Your task to perform on an android device: Go to calendar. Show me events next week Image 0: 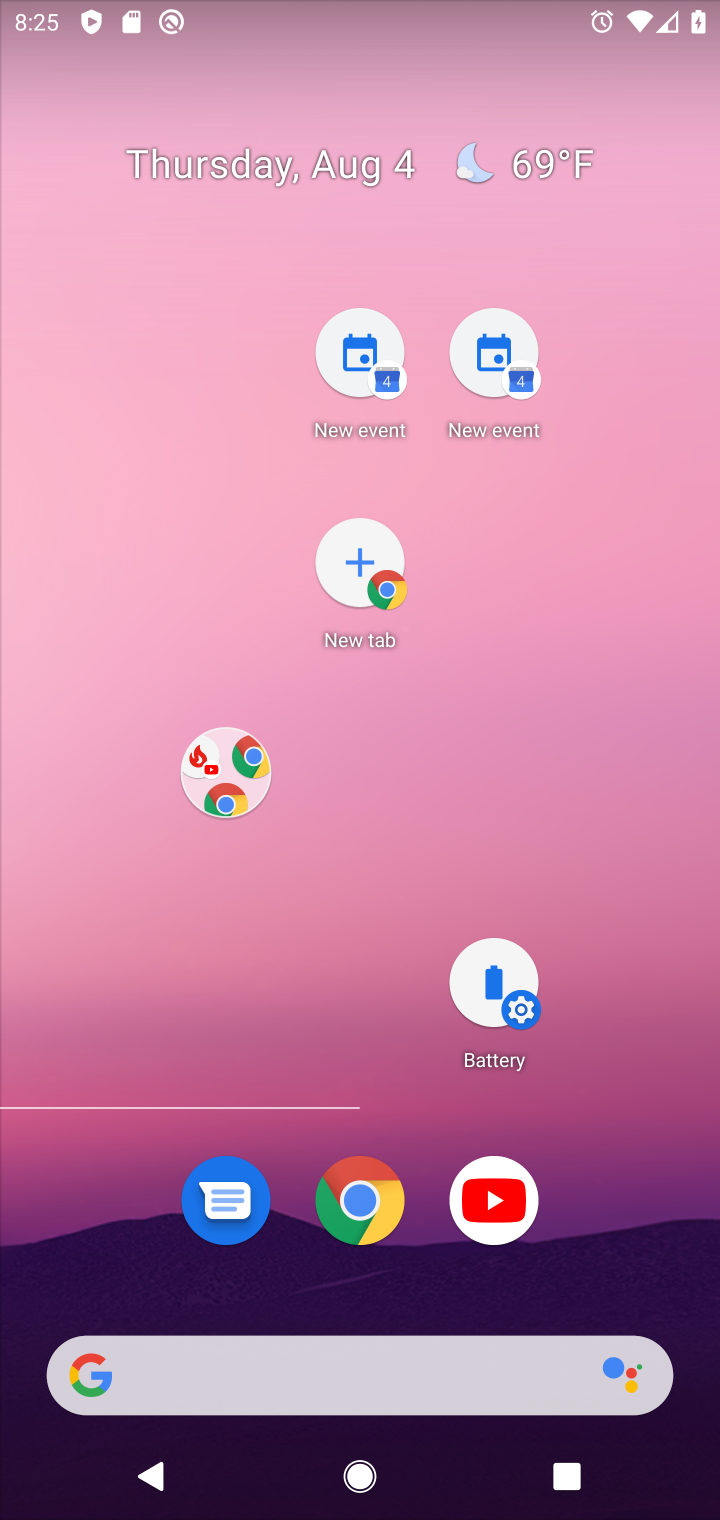
Step 0: press back button
Your task to perform on an android device: Go to calendar. Show me events next week Image 1: 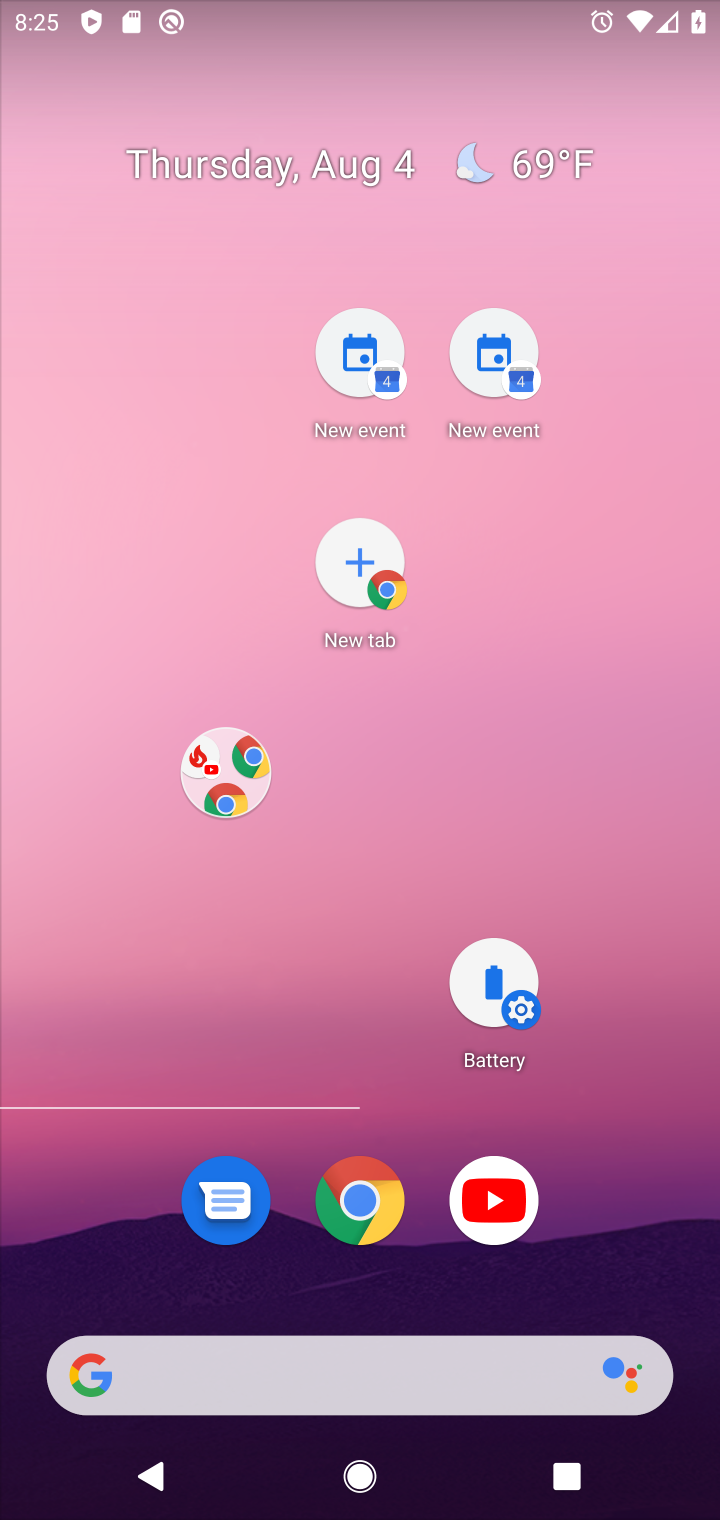
Step 1: click (348, 34)
Your task to perform on an android device: Go to calendar. Show me events next week Image 2: 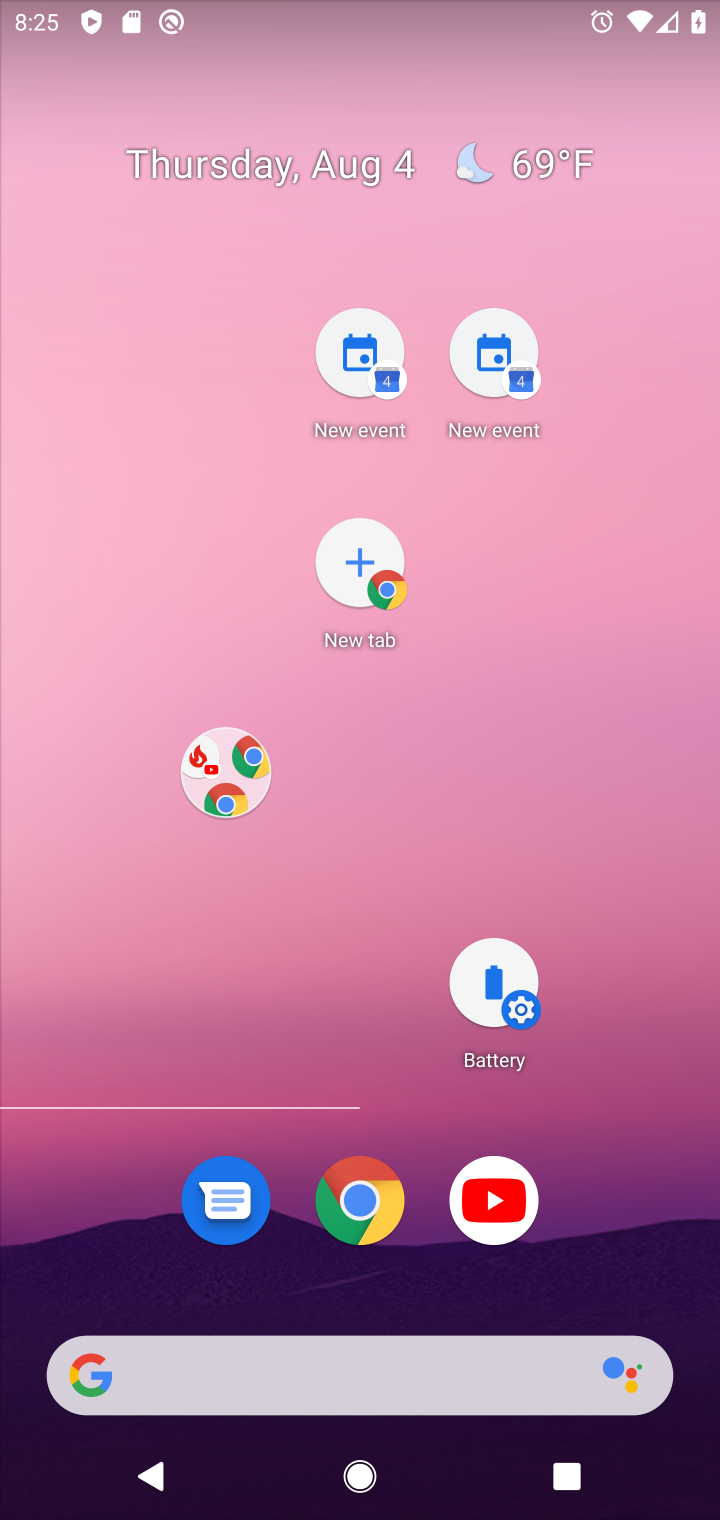
Step 2: click (375, 216)
Your task to perform on an android device: Go to calendar. Show me events next week Image 3: 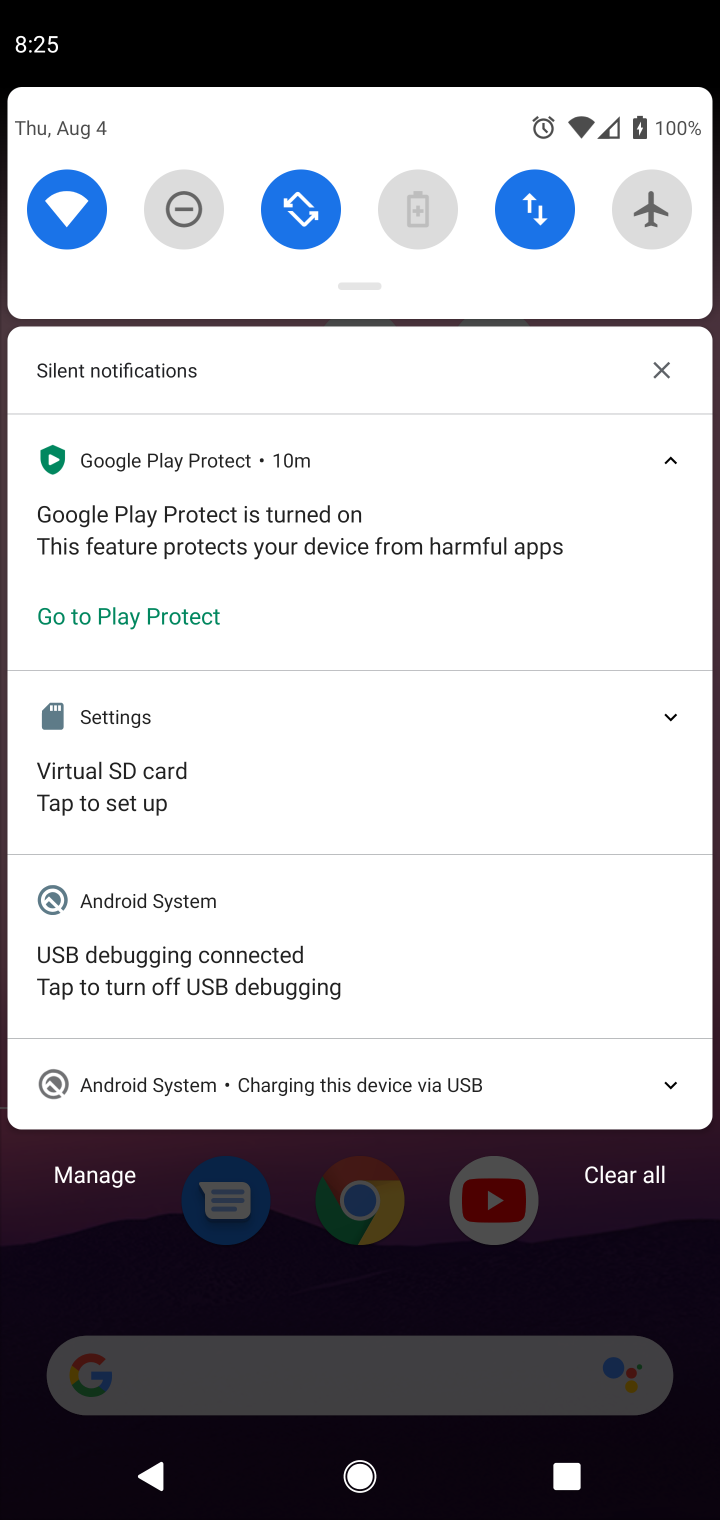
Step 3: drag from (510, 1135) to (439, 197)
Your task to perform on an android device: Go to calendar. Show me events next week Image 4: 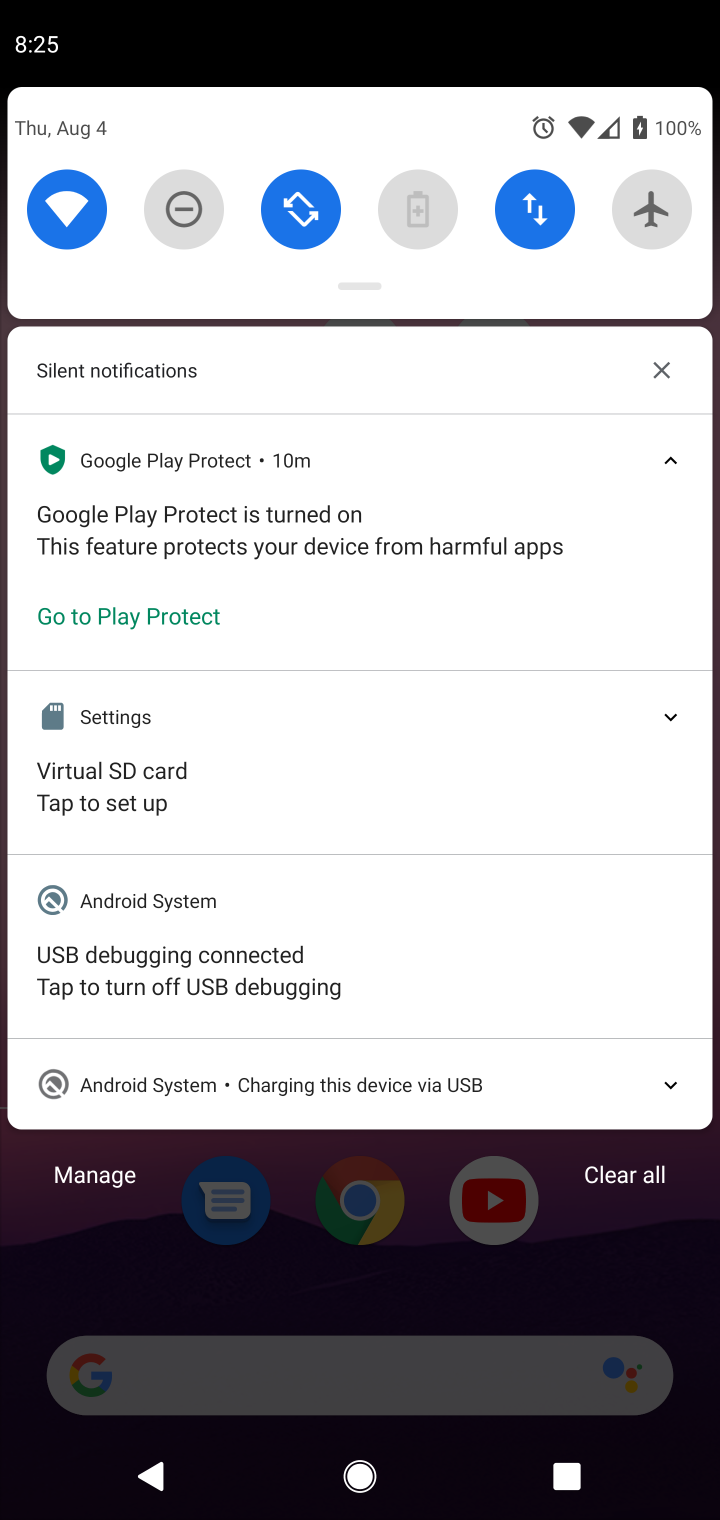
Step 4: drag from (520, 1056) to (482, 450)
Your task to perform on an android device: Go to calendar. Show me events next week Image 5: 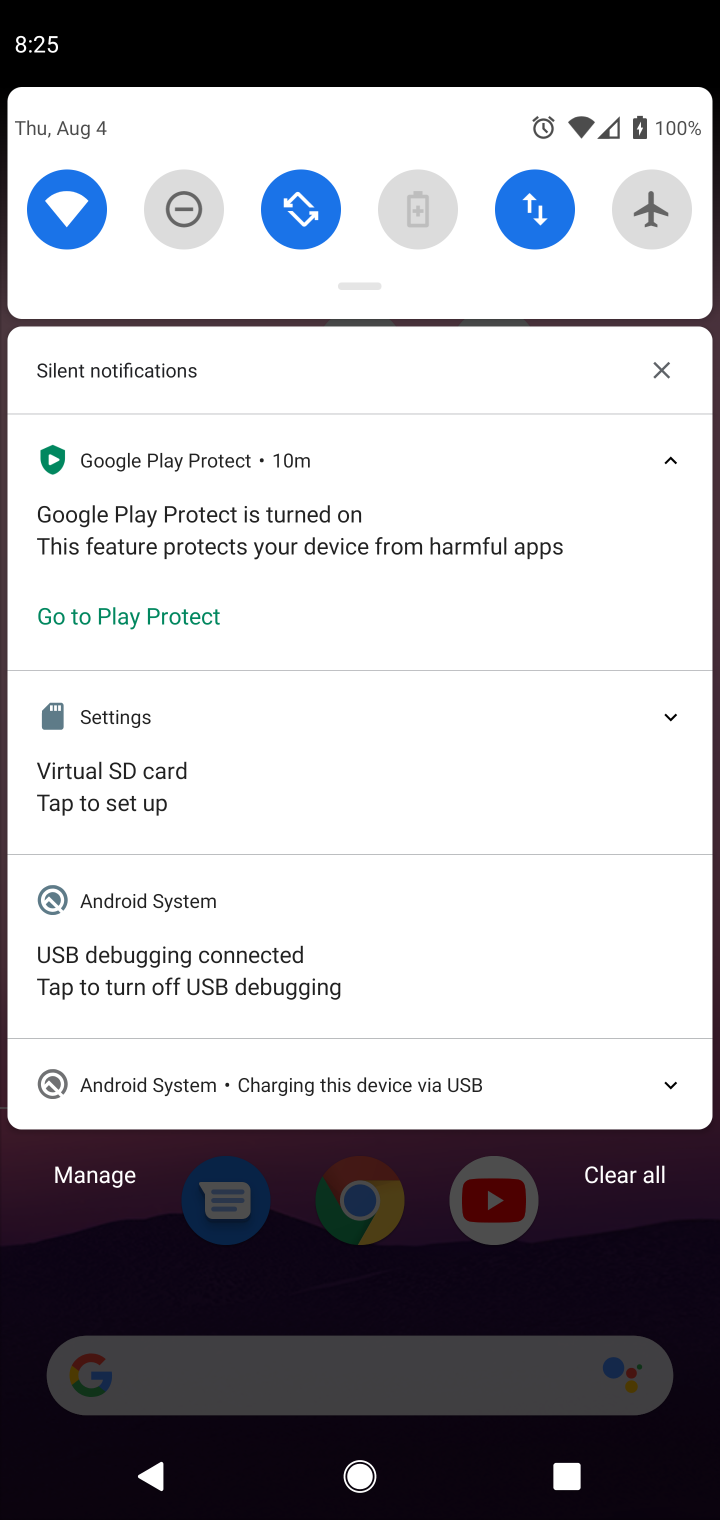
Step 5: drag from (395, 1196) to (256, 5)
Your task to perform on an android device: Go to calendar. Show me events next week Image 6: 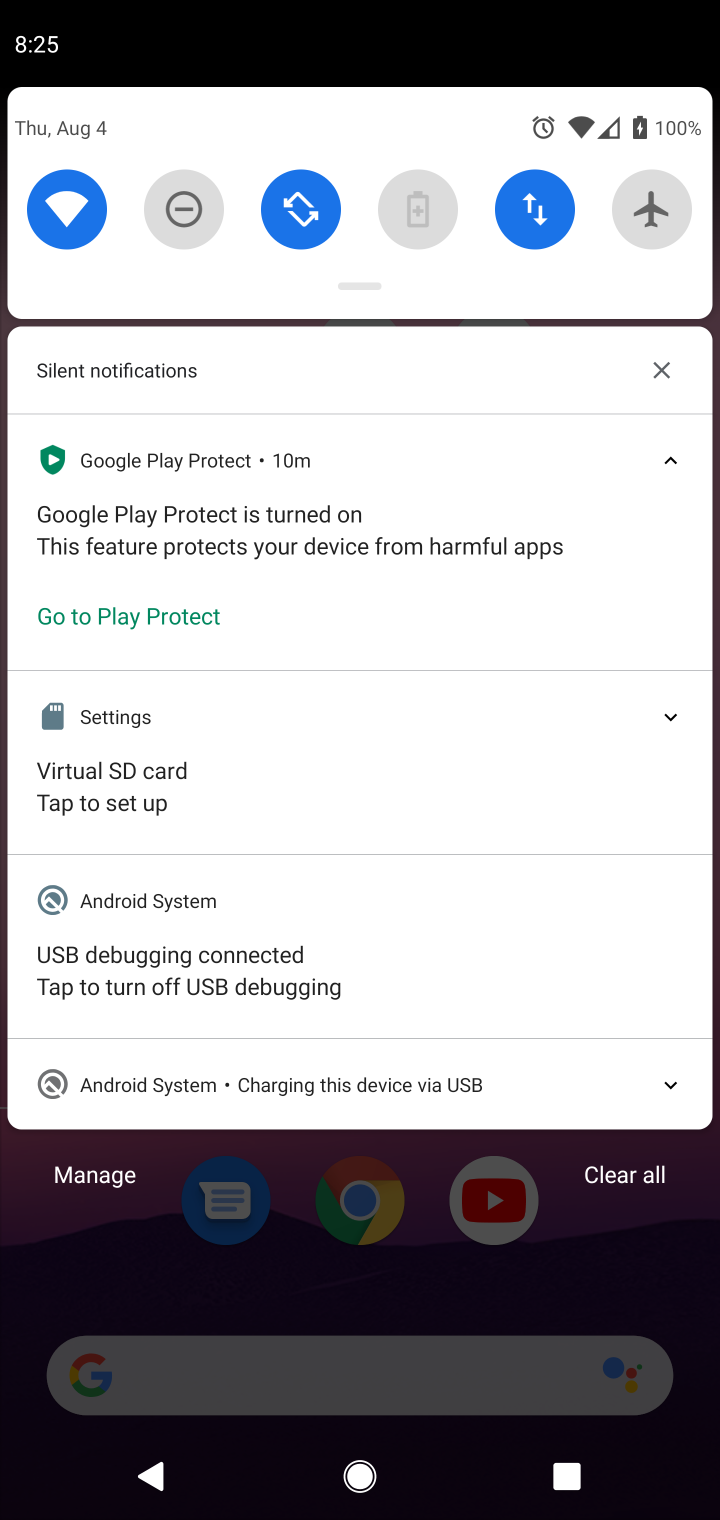
Step 6: click (348, 198)
Your task to perform on an android device: Go to calendar. Show me events next week Image 7: 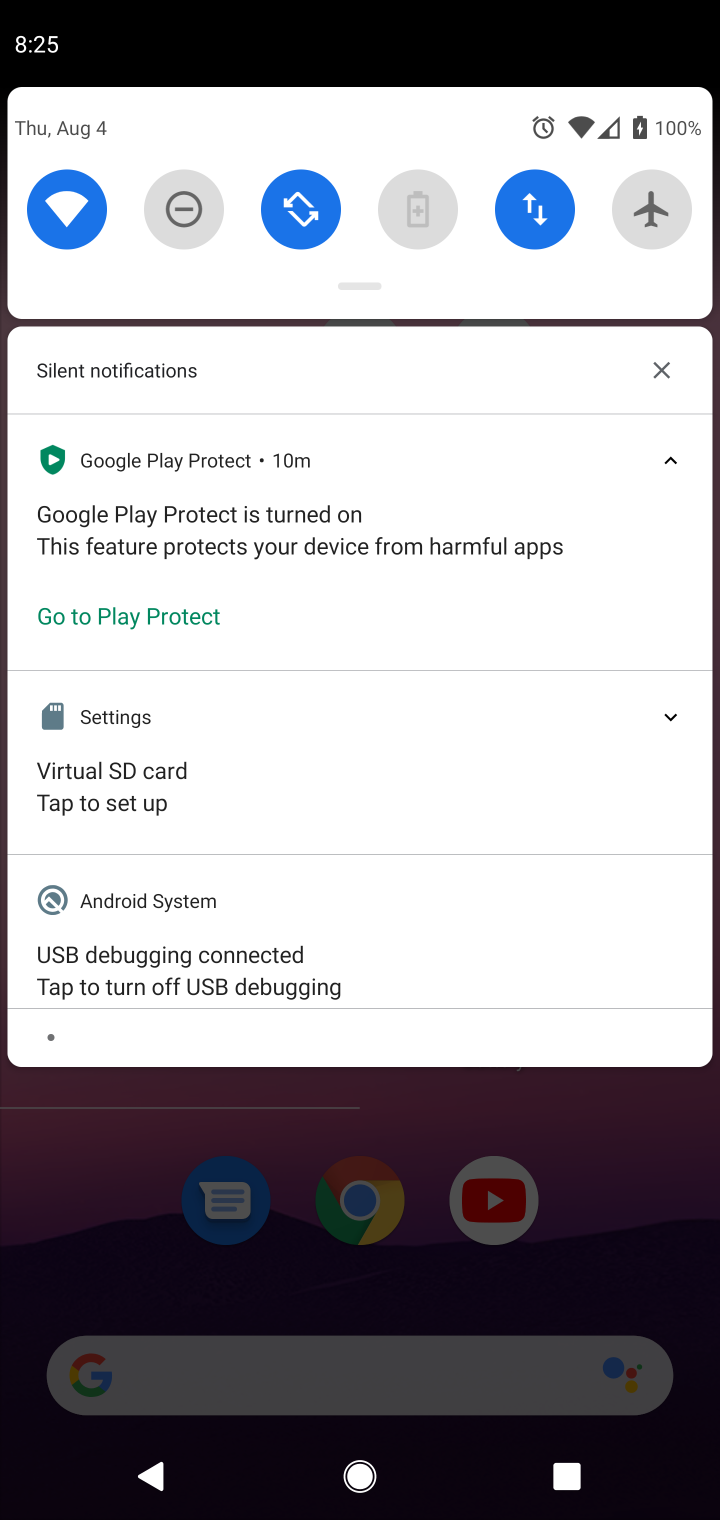
Step 7: click (372, 14)
Your task to perform on an android device: Go to calendar. Show me events next week Image 8: 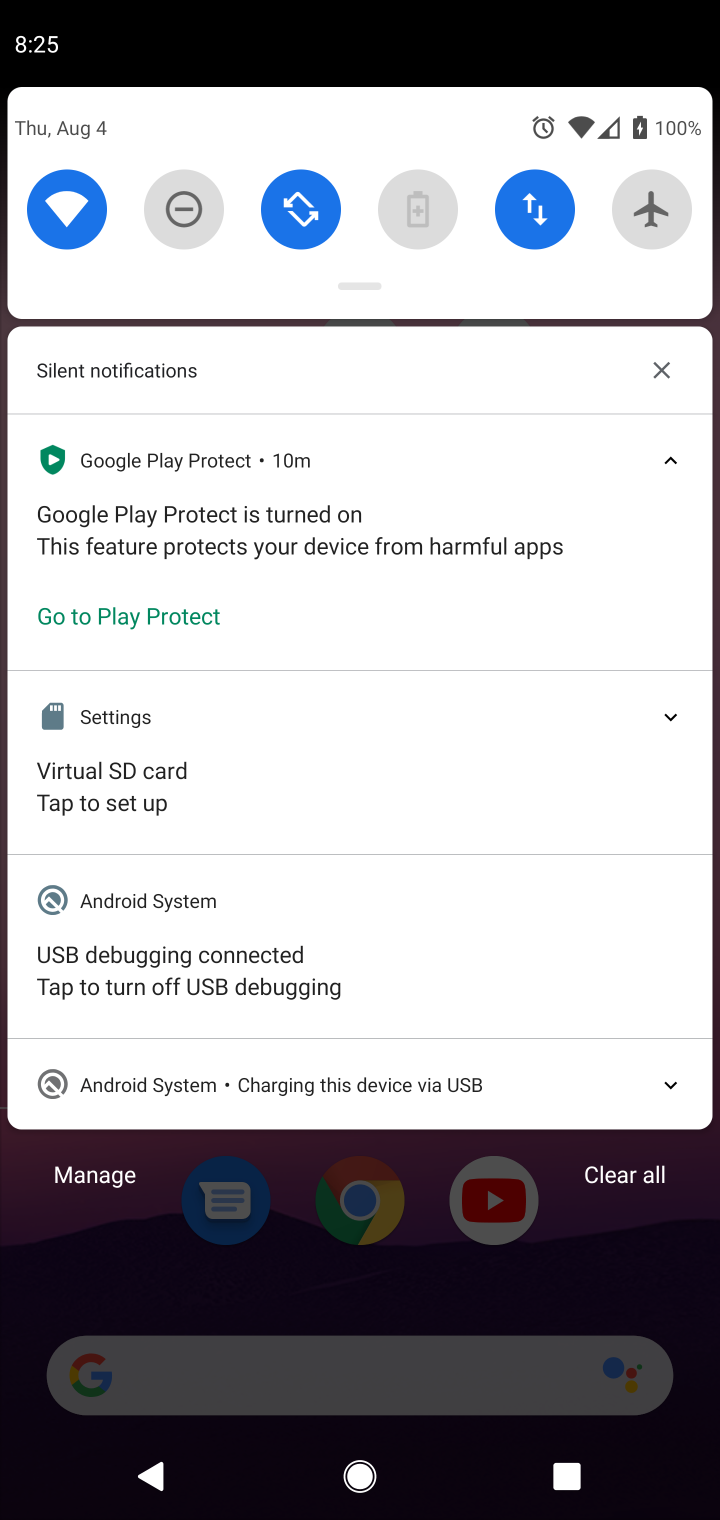
Step 8: press back button
Your task to perform on an android device: Go to calendar. Show me events next week Image 9: 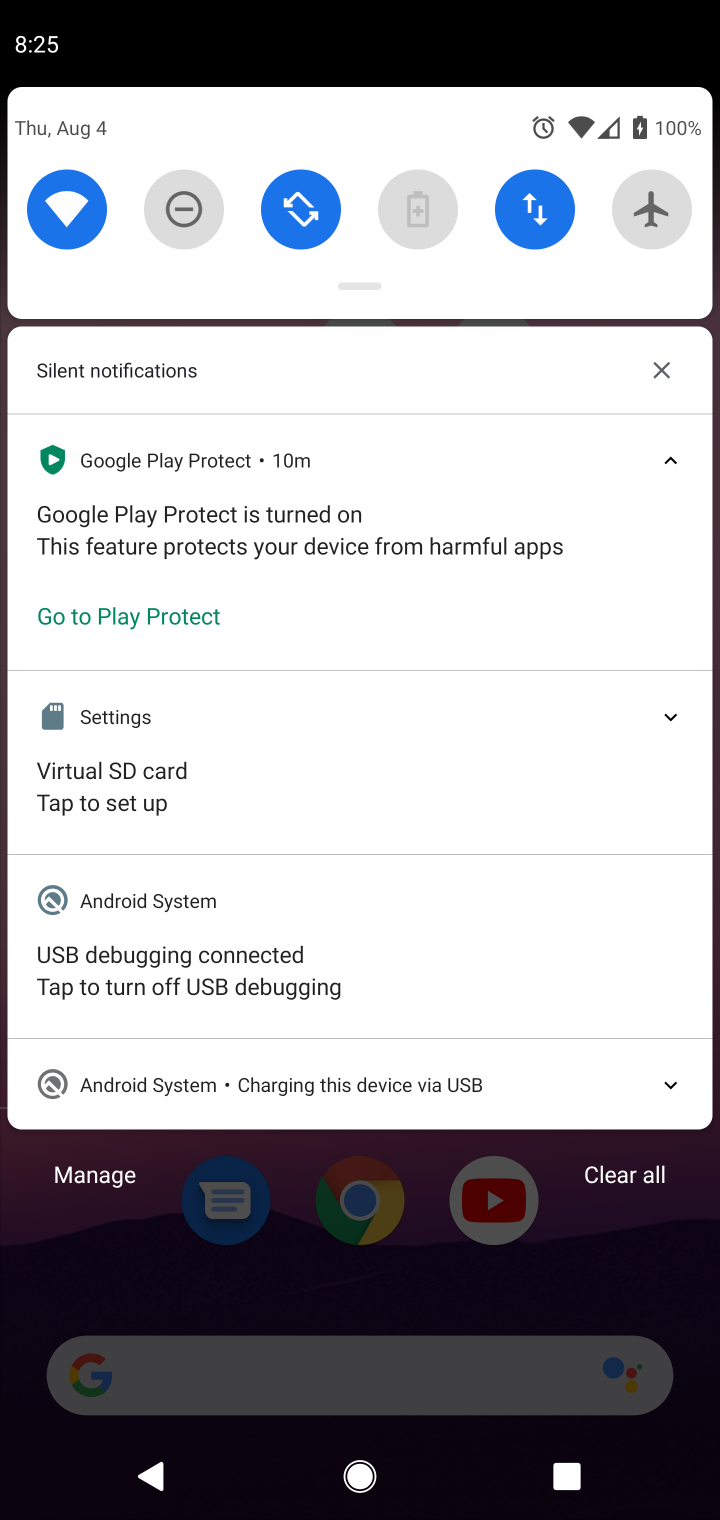
Step 9: press back button
Your task to perform on an android device: Go to calendar. Show me events next week Image 10: 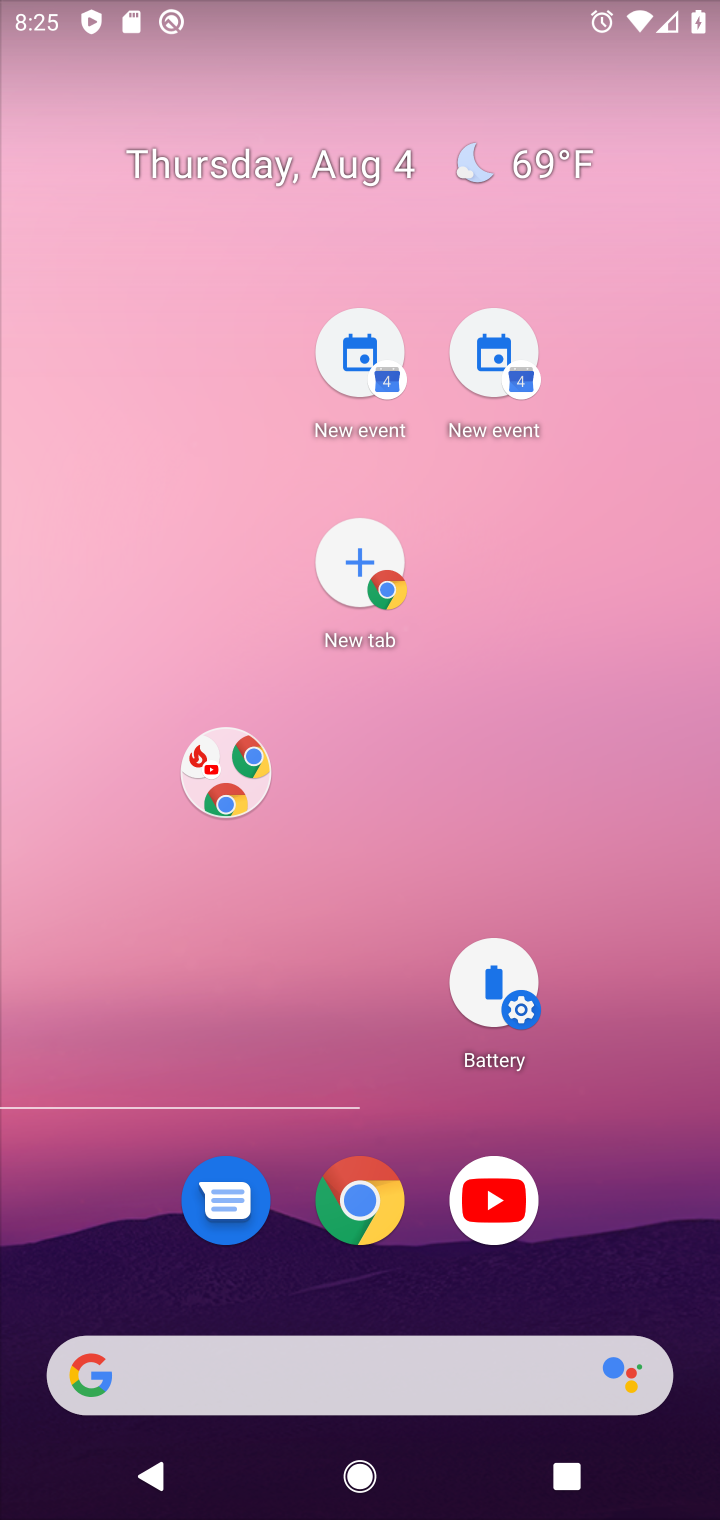
Step 10: click (250, 683)
Your task to perform on an android device: Go to calendar. Show me events next week Image 11: 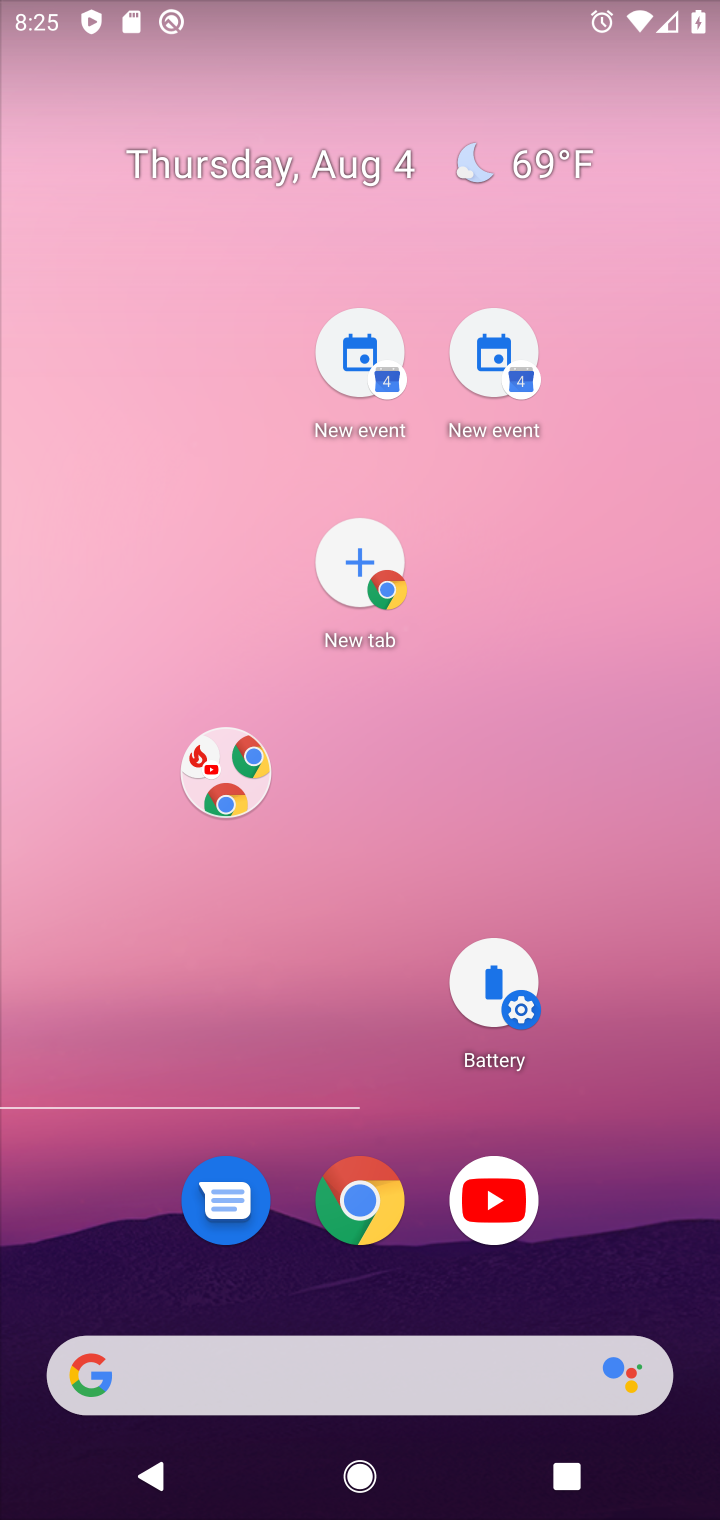
Step 11: drag from (384, 1323) to (309, 792)
Your task to perform on an android device: Go to calendar. Show me events next week Image 12: 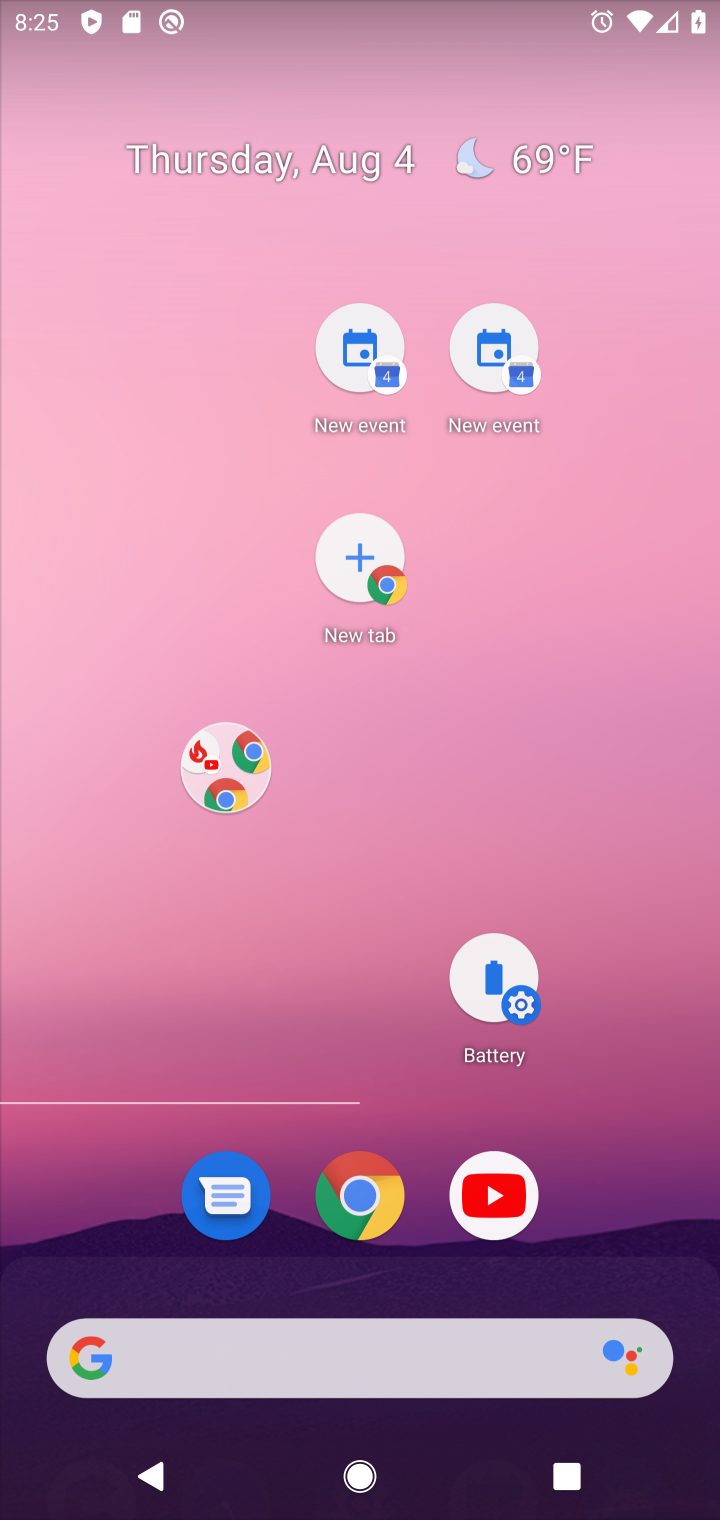
Step 12: drag from (460, 1326) to (307, 378)
Your task to perform on an android device: Go to calendar. Show me events next week Image 13: 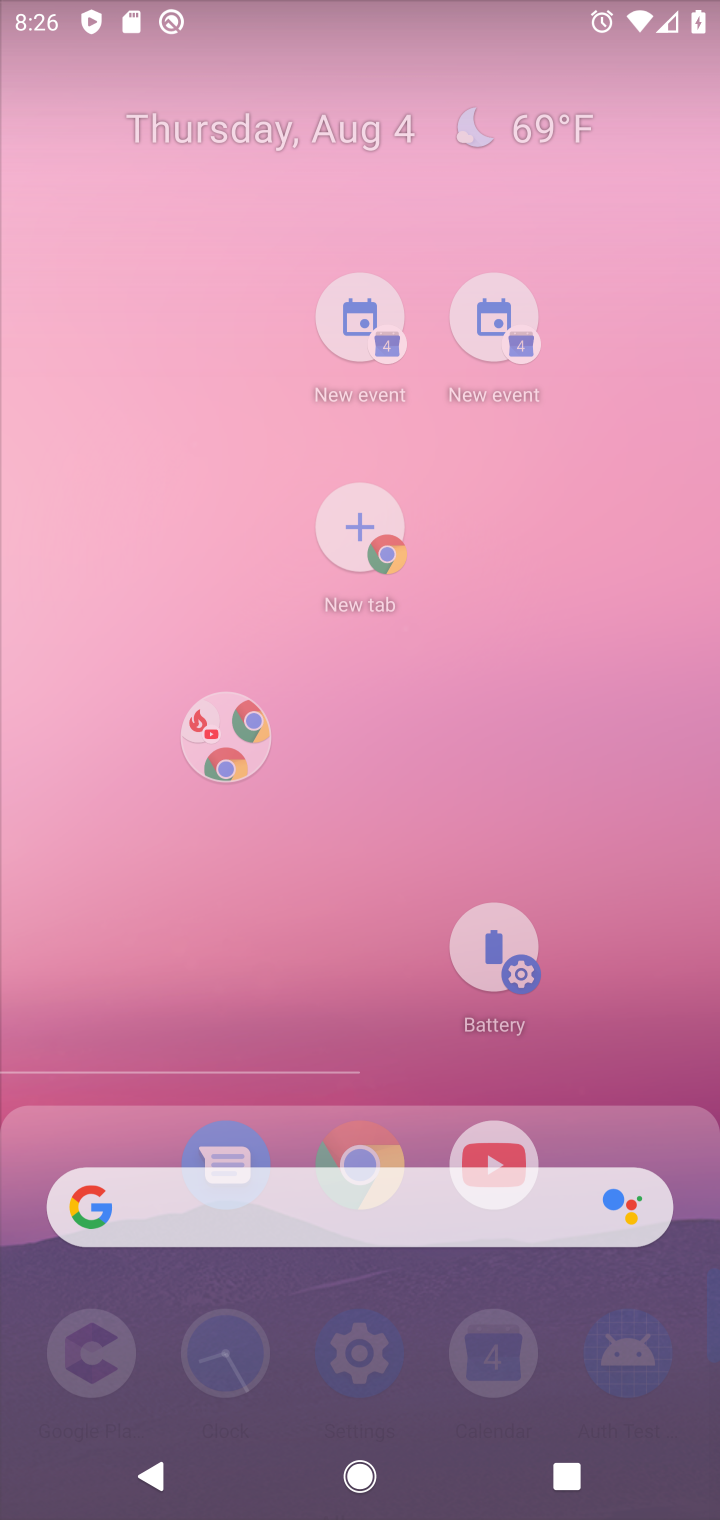
Step 13: click (410, 501)
Your task to perform on an android device: Go to calendar. Show me events next week Image 14: 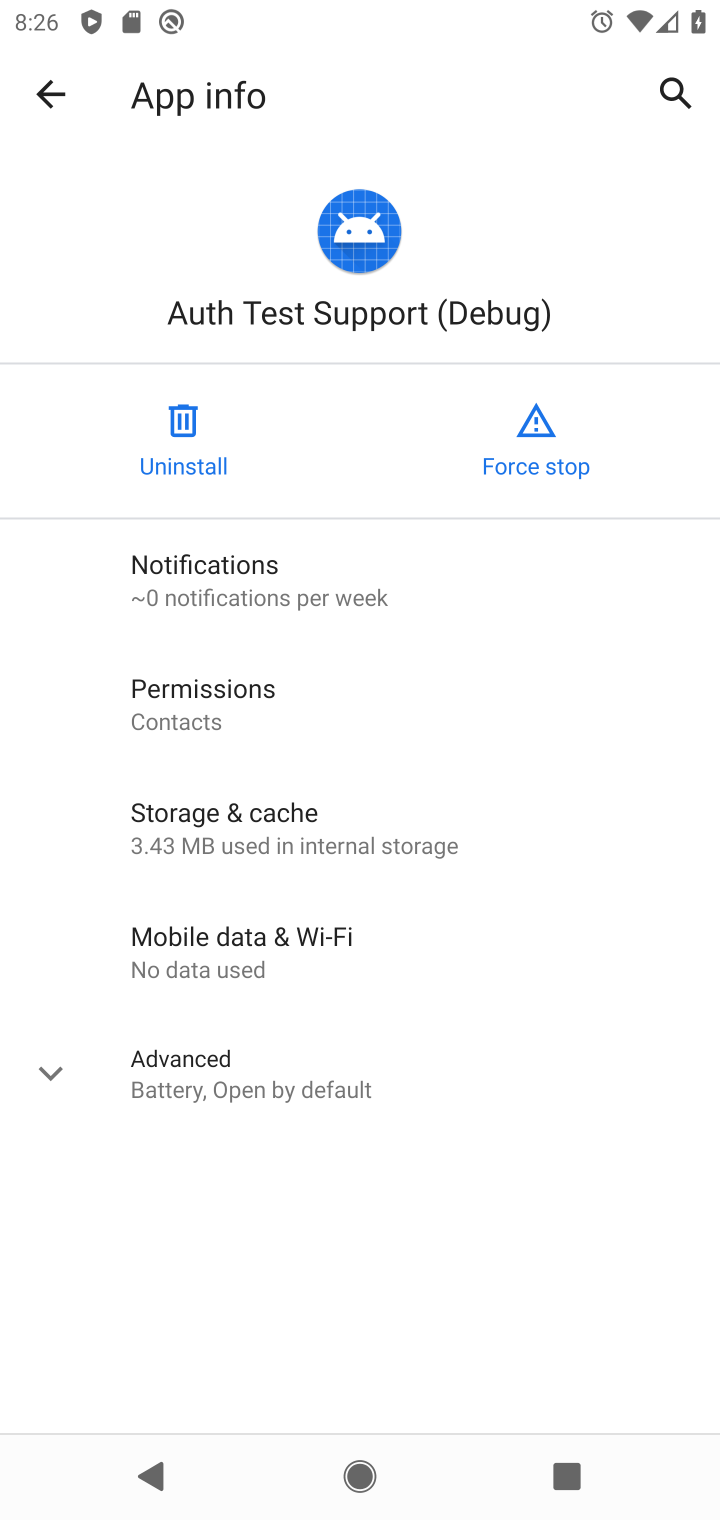
Step 14: click (605, 529)
Your task to perform on an android device: Go to calendar. Show me events next week Image 15: 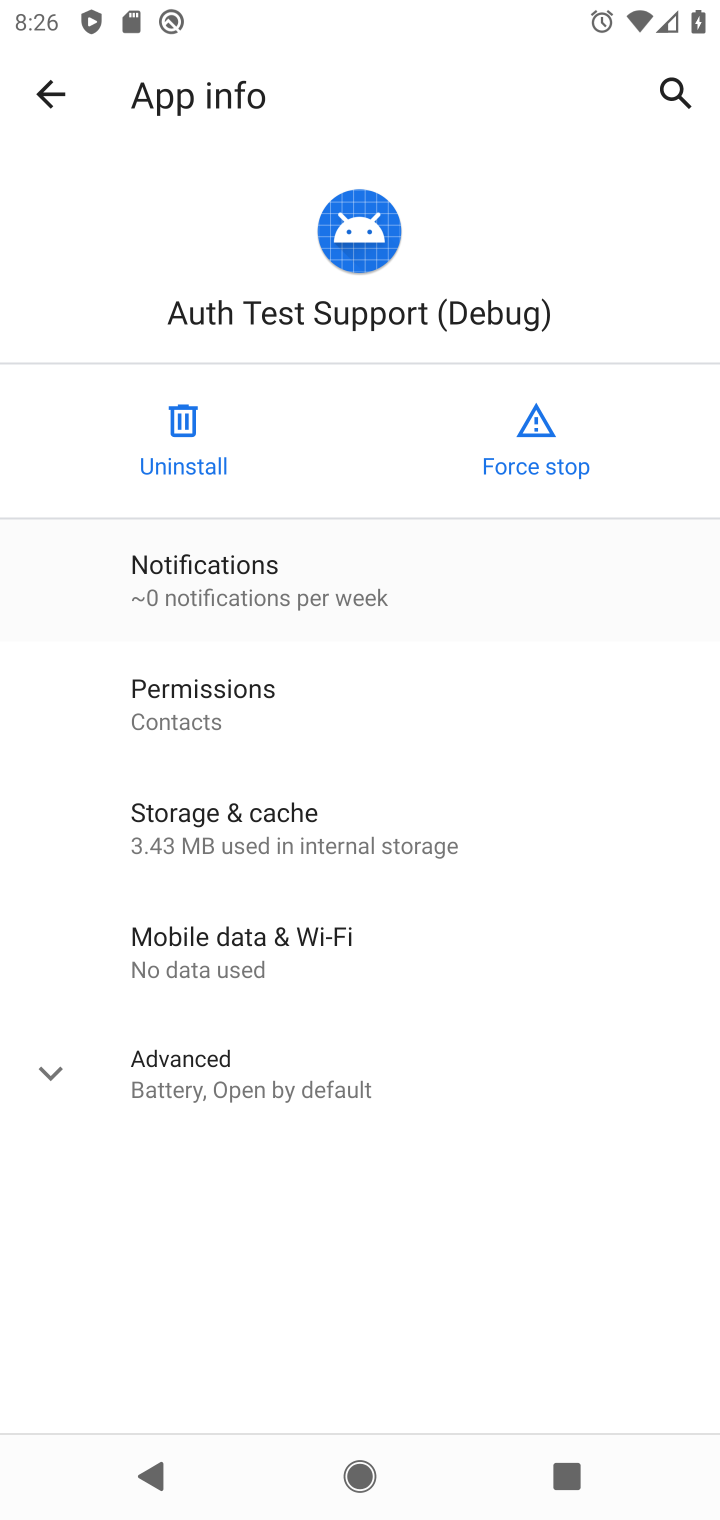
Step 15: click (36, 102)
Your task to perform on an android device: Go to calendar. Show me events next week Image 16: 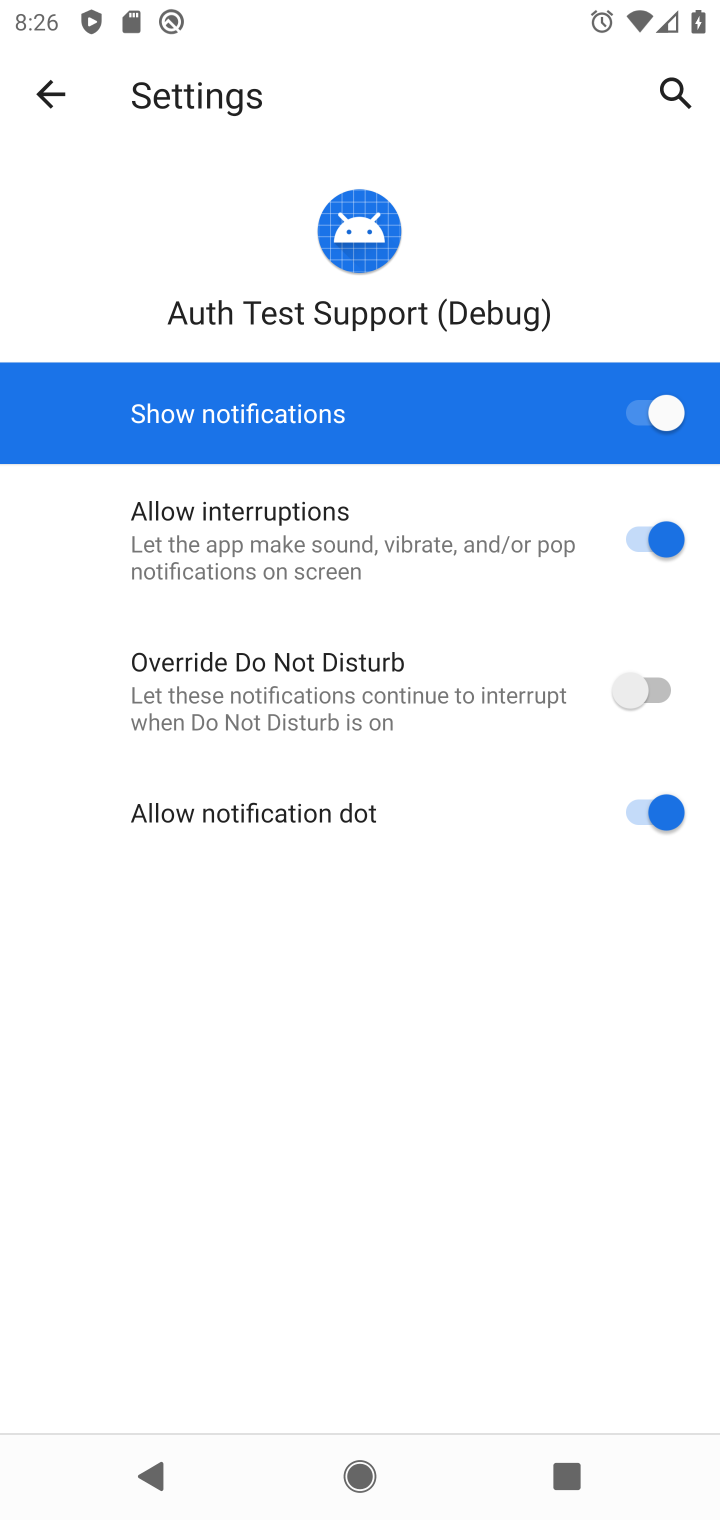
Step 16: click (45, 98)
Your task to perform on an android device: Go to calendar. Show me events next week Image 17: 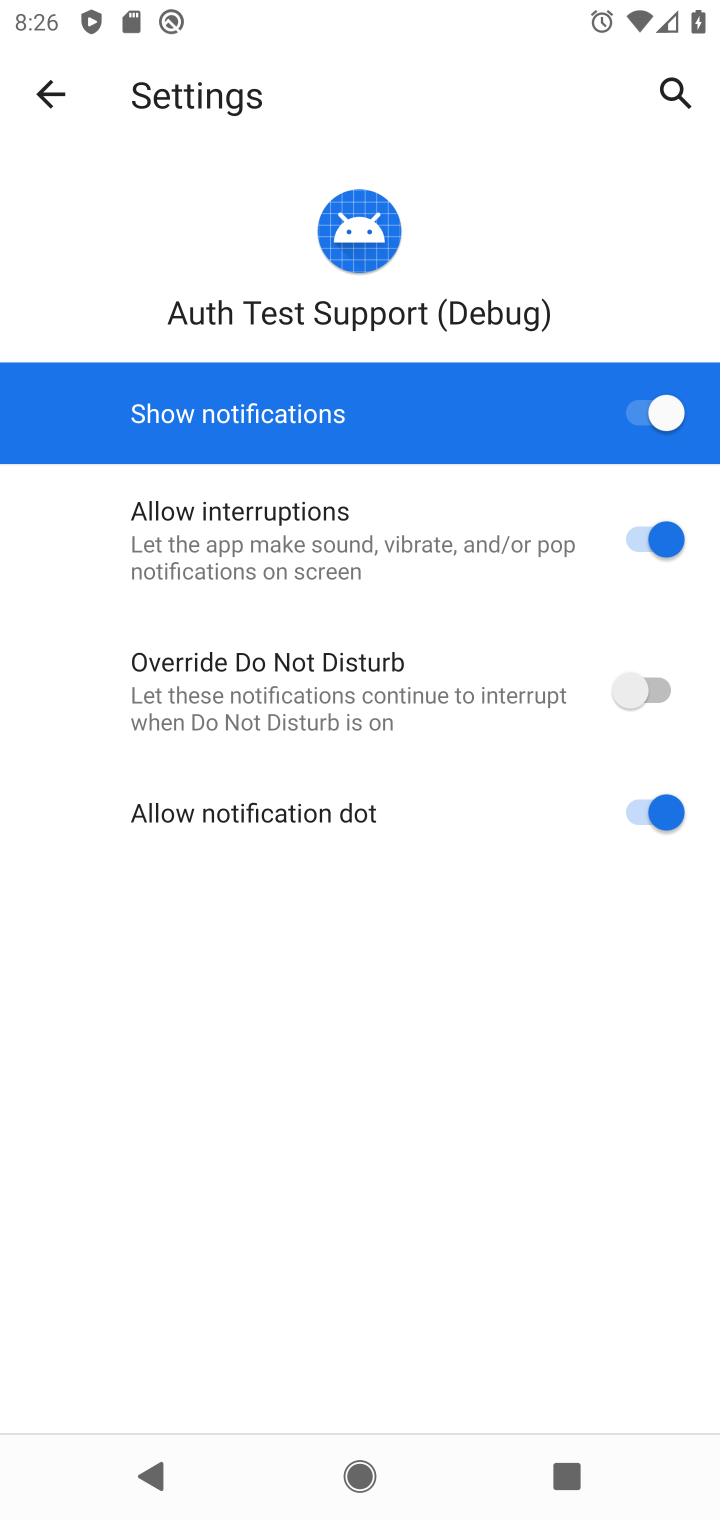
Step 17: click (47, 100)
Your task to perform on an android device: Go to calendar. Show me events next week Image 18: 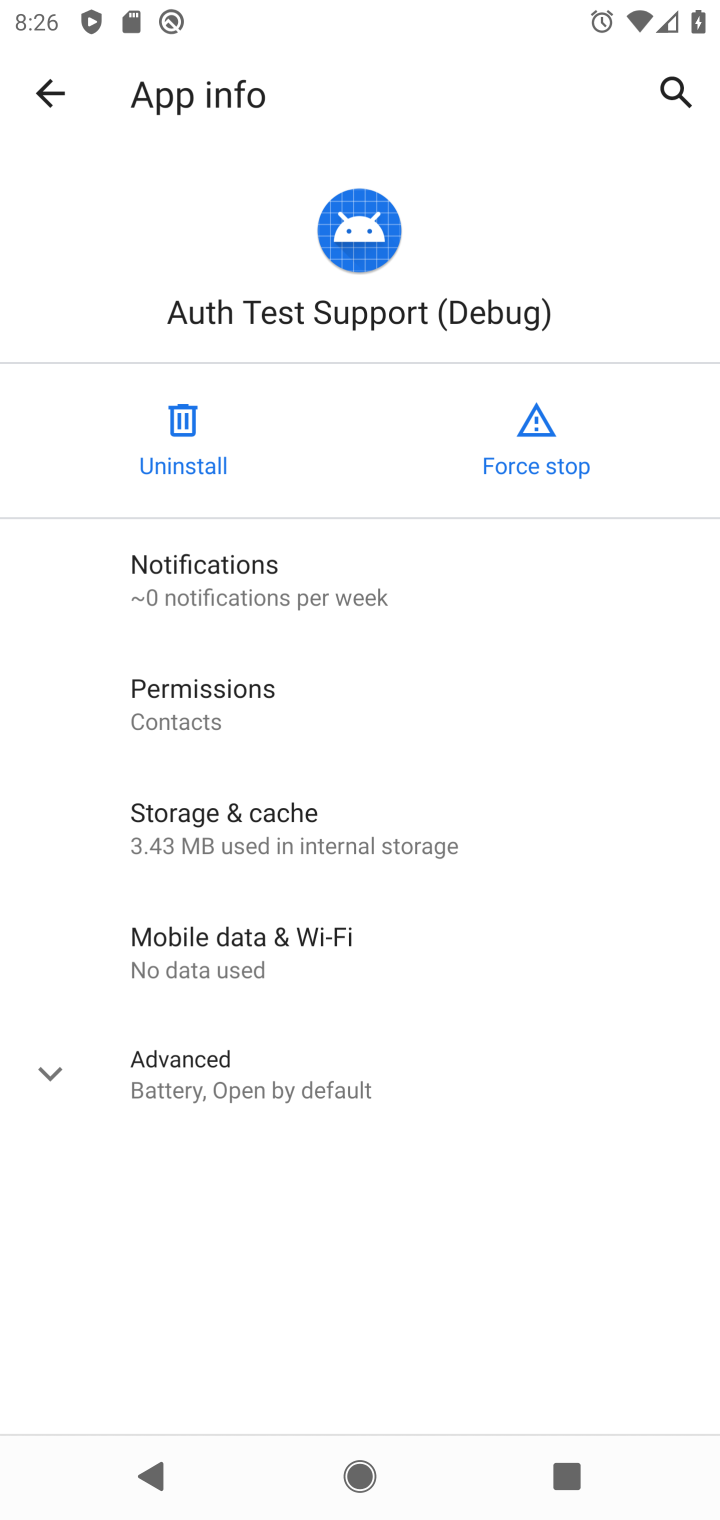
Step 18: click (47, 100)
Your task to perform on an android device: Go to calendar. Show me events next week Image 19: 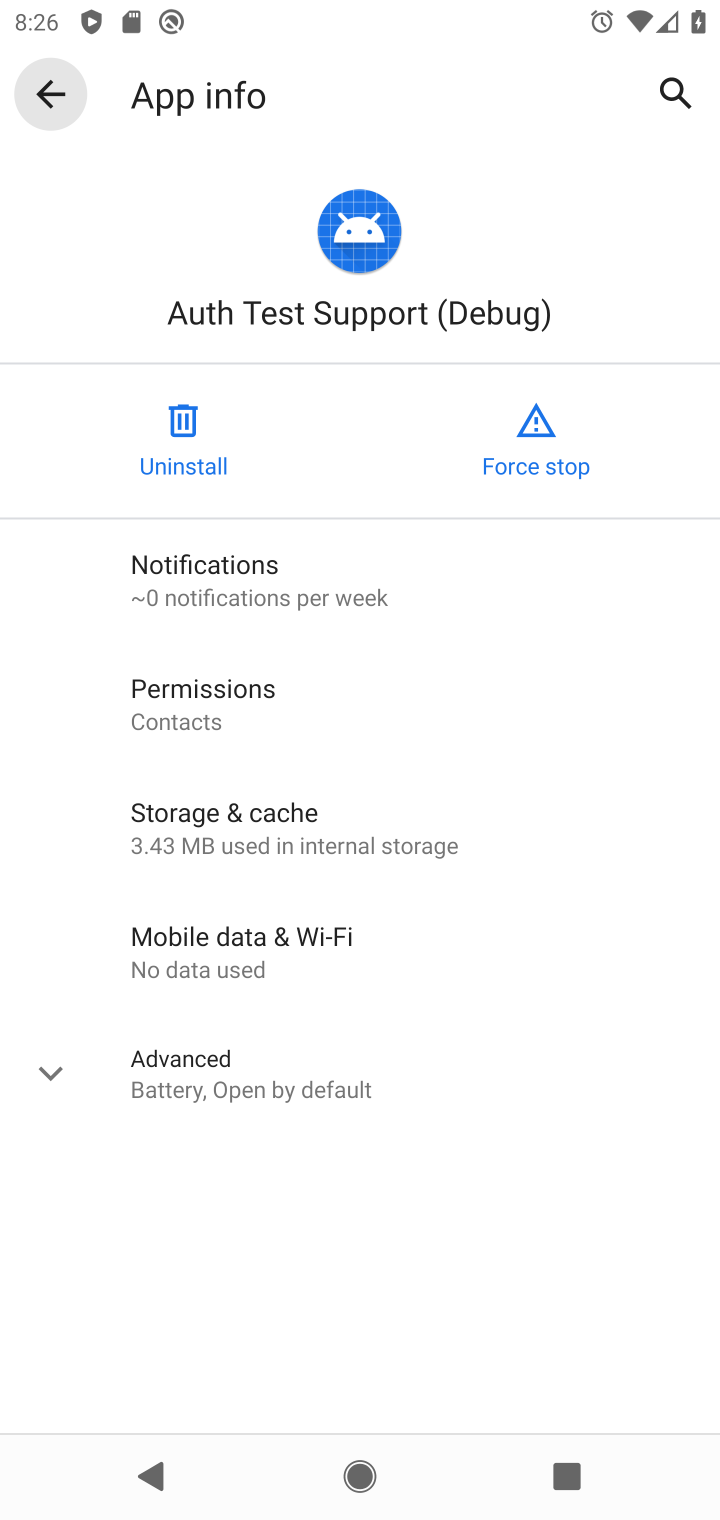
Step 19: click (47, 100)
Your task to perform on an android device: Go to calendar. Show me events next week Image 20: 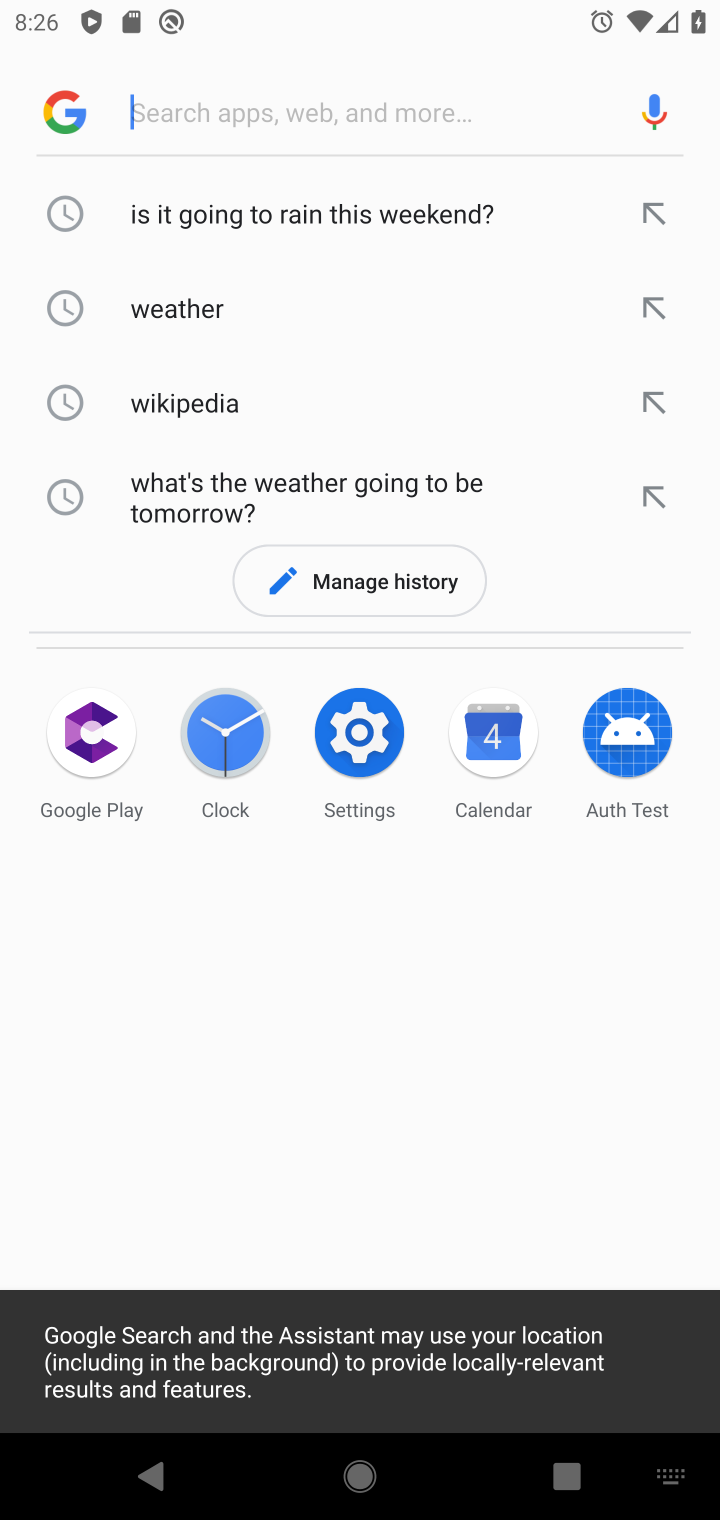
Step 20: press back button
Your task to perform on an android device: Go to calendar. Show me events next week Image 21: 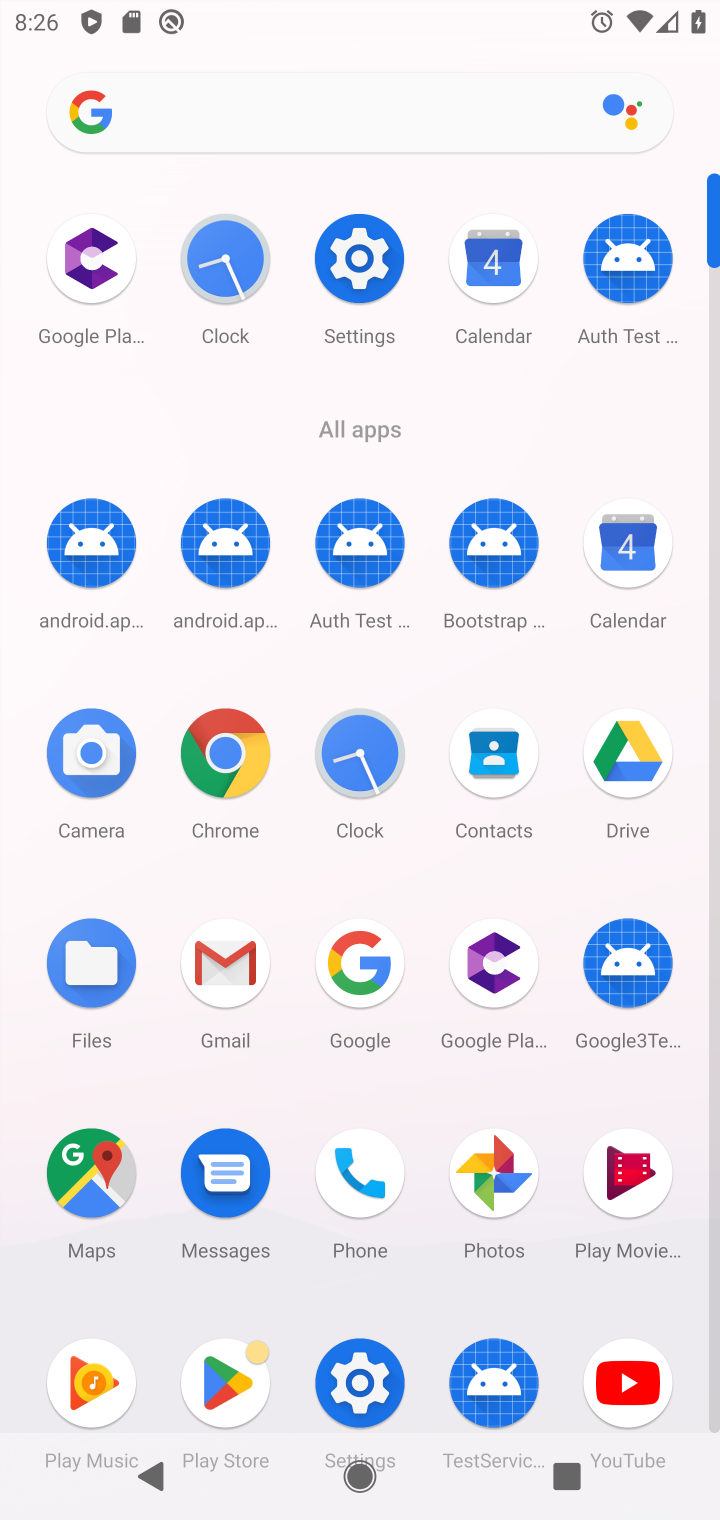
Step 21: click (635, 530)
Your task to perform on an android device: Go to calendar. Show me events next week Image 22: 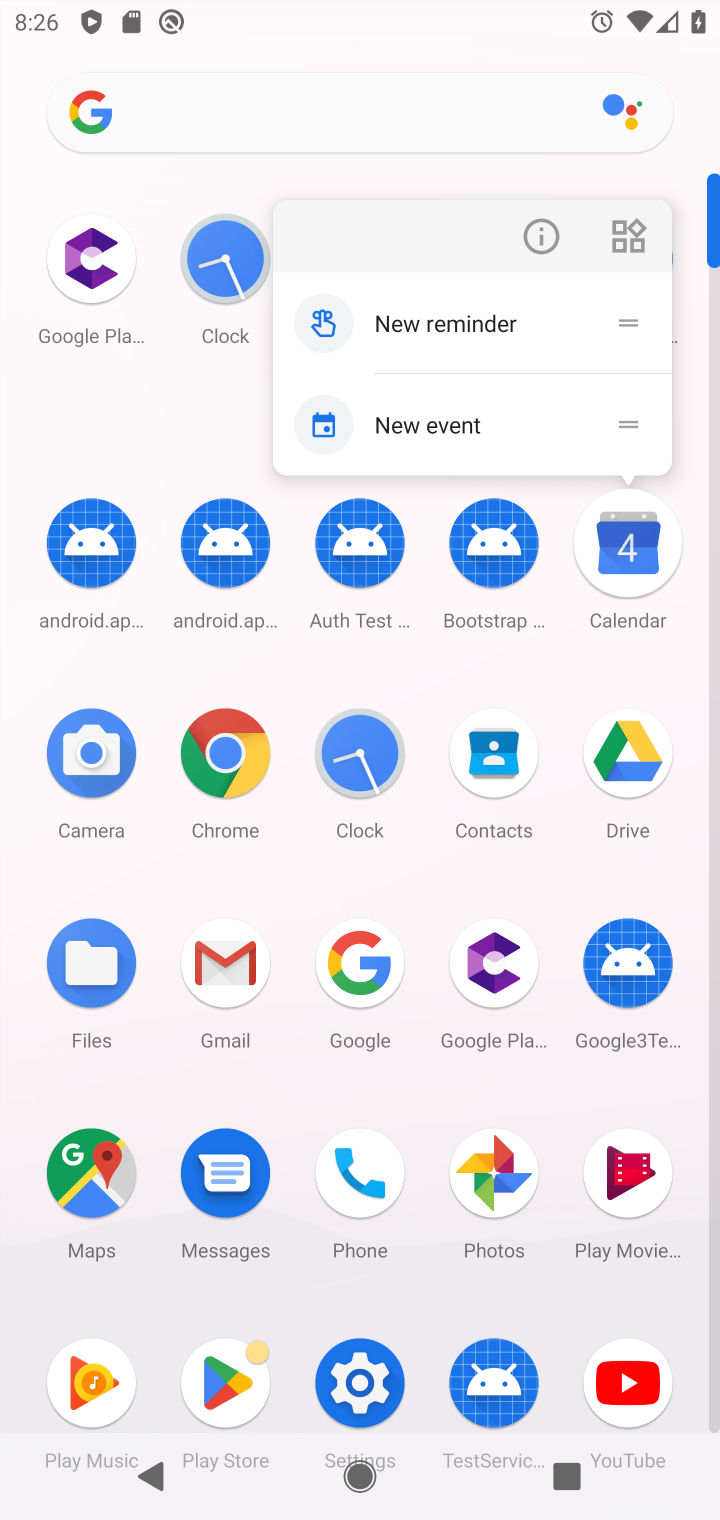
Step 22: click (617, 561)
Your task to perform on an android device: Go to calendar. Show me events next week Image 23: 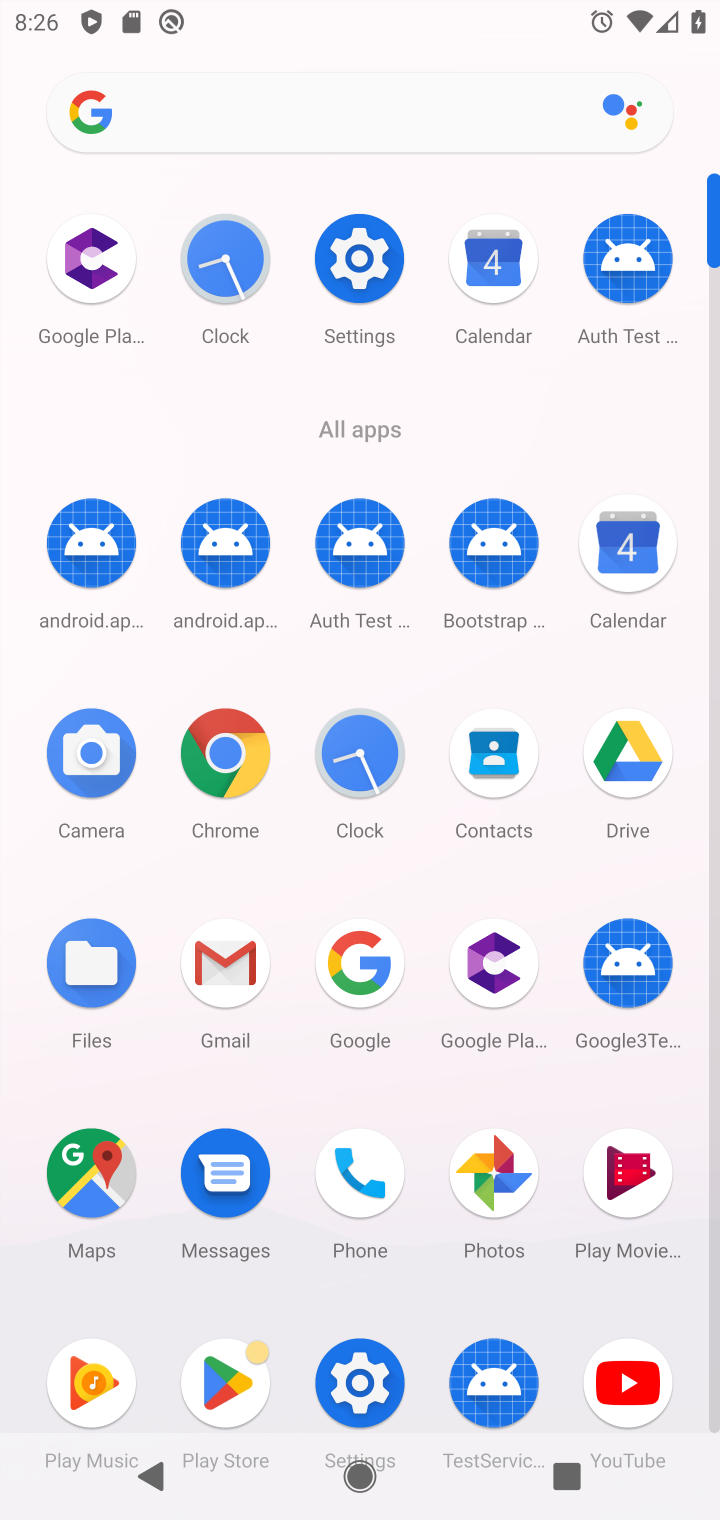
Step 23: click (472, 432)
Your task to perform on an android device: Go to calendar. Show me events next week Image 24: 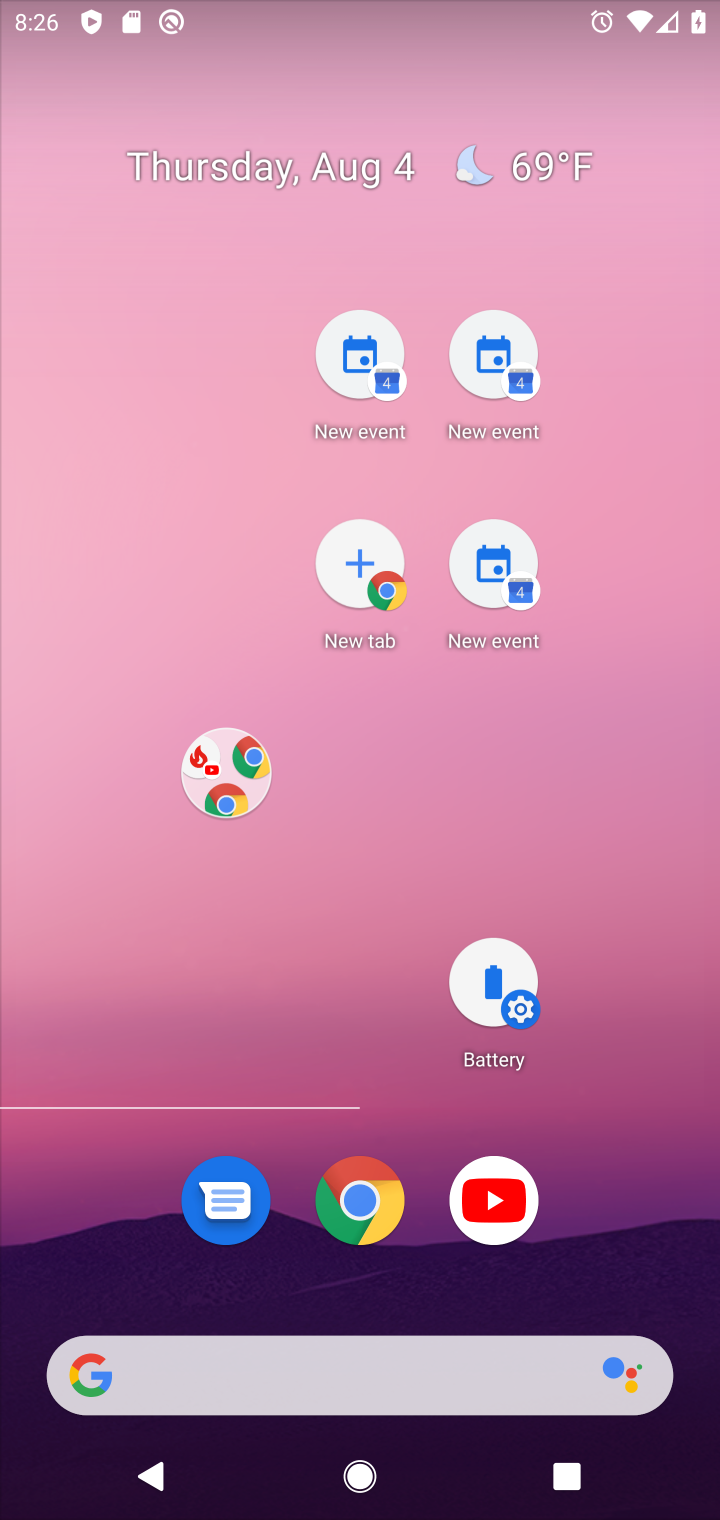
Step 24: drag from (341, 807) to (271, 233)
Your task to perform on an android device: Go to calendar. Show me events next week Image 25: 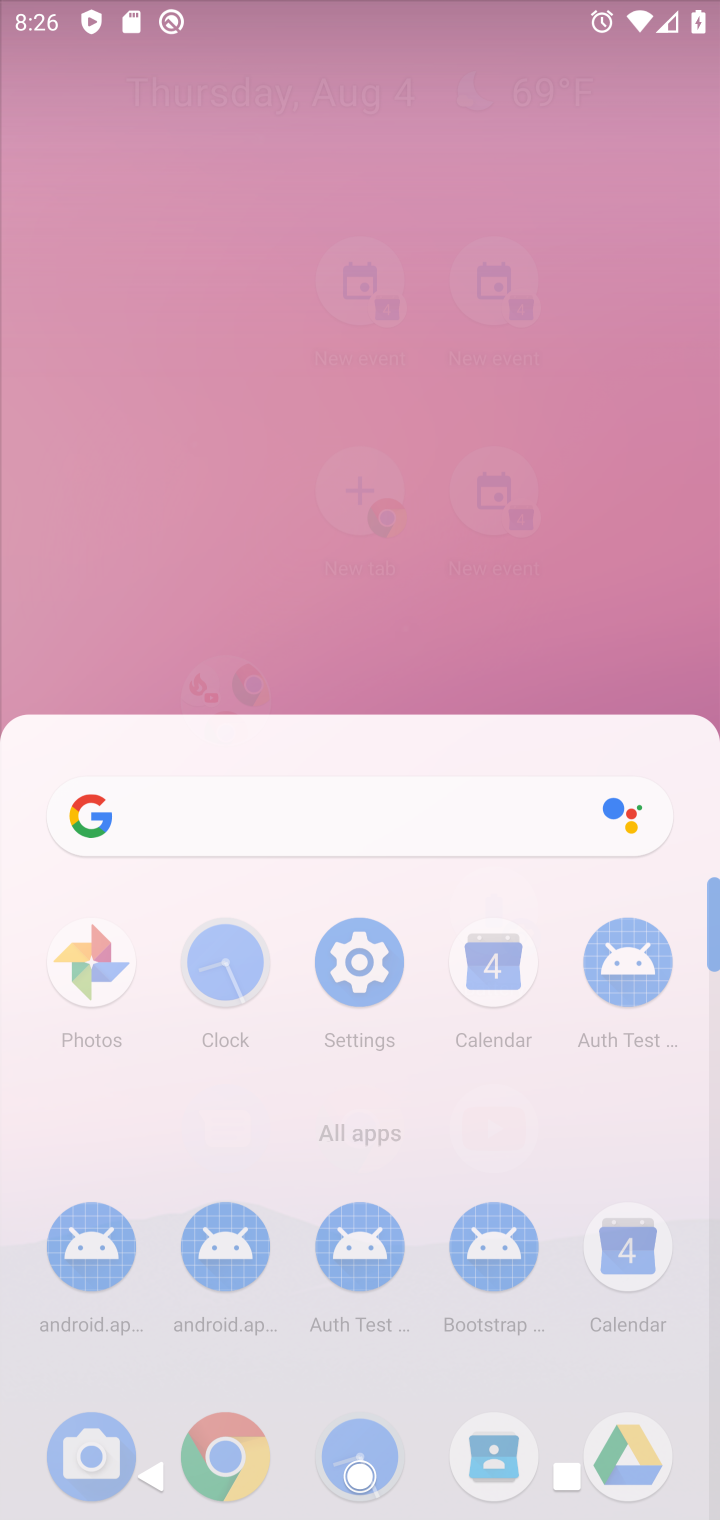
Step 25: click (511, 374)
Your task to perform on an android device: Go to calendar. Show me events next week Image 26: 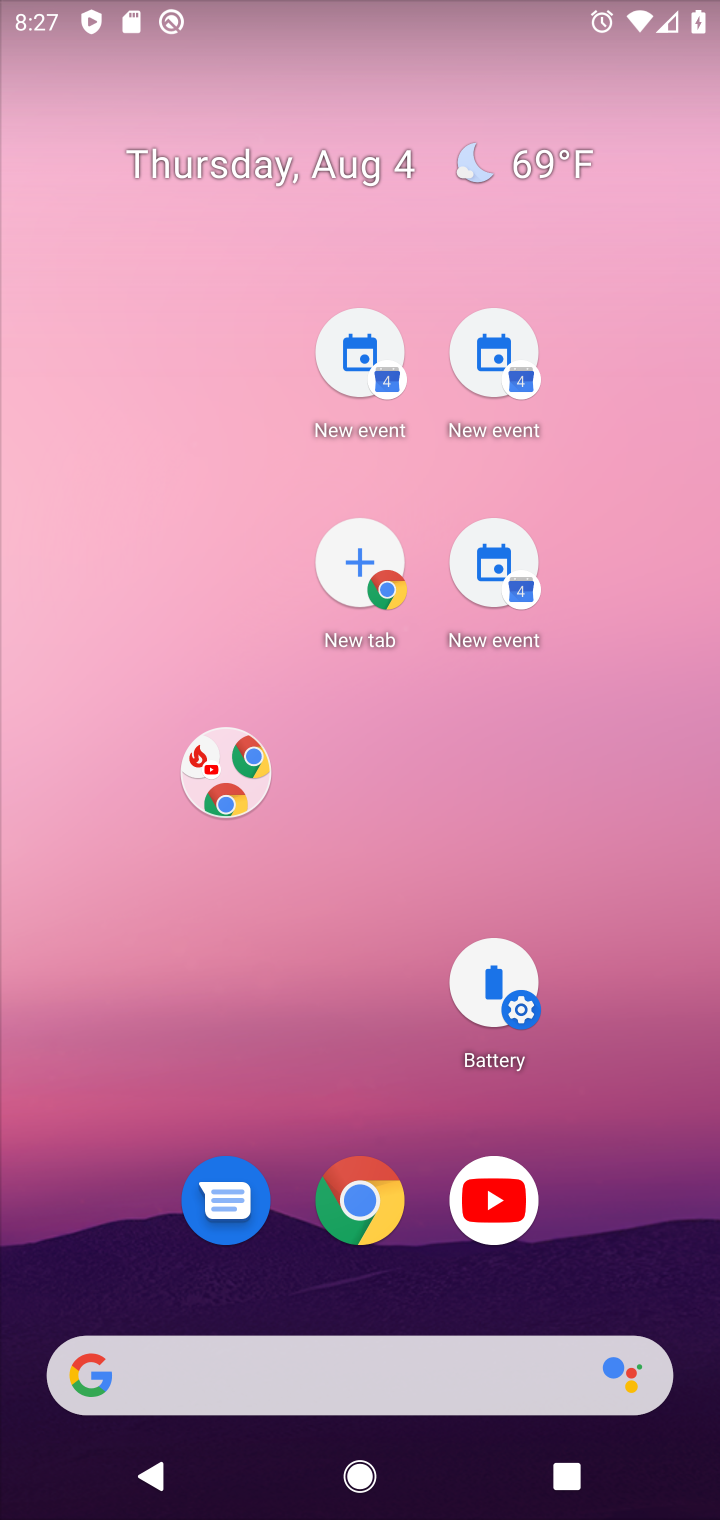
Step 26: drag from (406, 1150) to (369, 265)
Your task to perform on an android device: Go to calendar. Show me events next week Image 27: 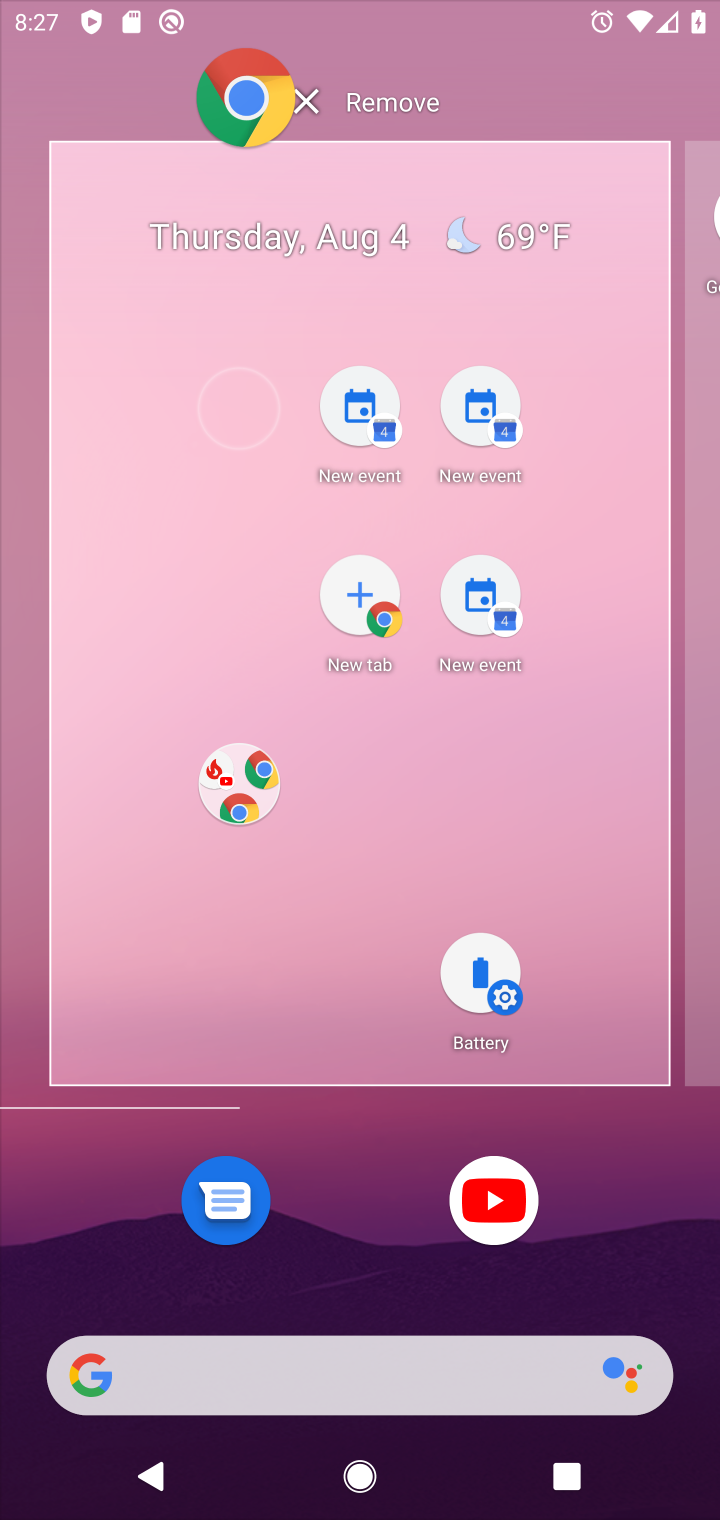
Step 27: click (423, 314)
Your task to perform on an android device: Go to calendar. Show me events next week Image 28: 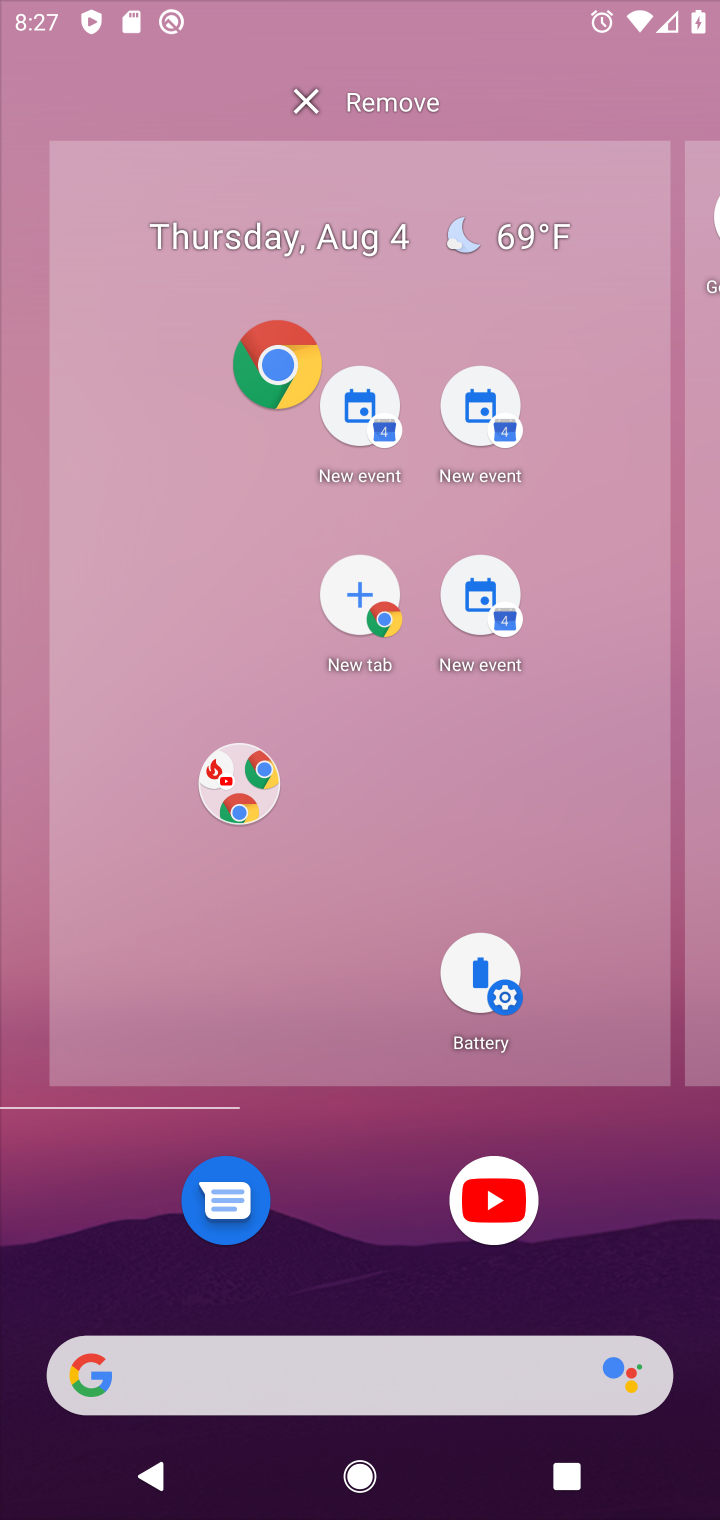
Step 28: drag from (477, 1265) to (355, 383)
Your task to perform on an android device: Go to calendar. Show me events next week Image 29: 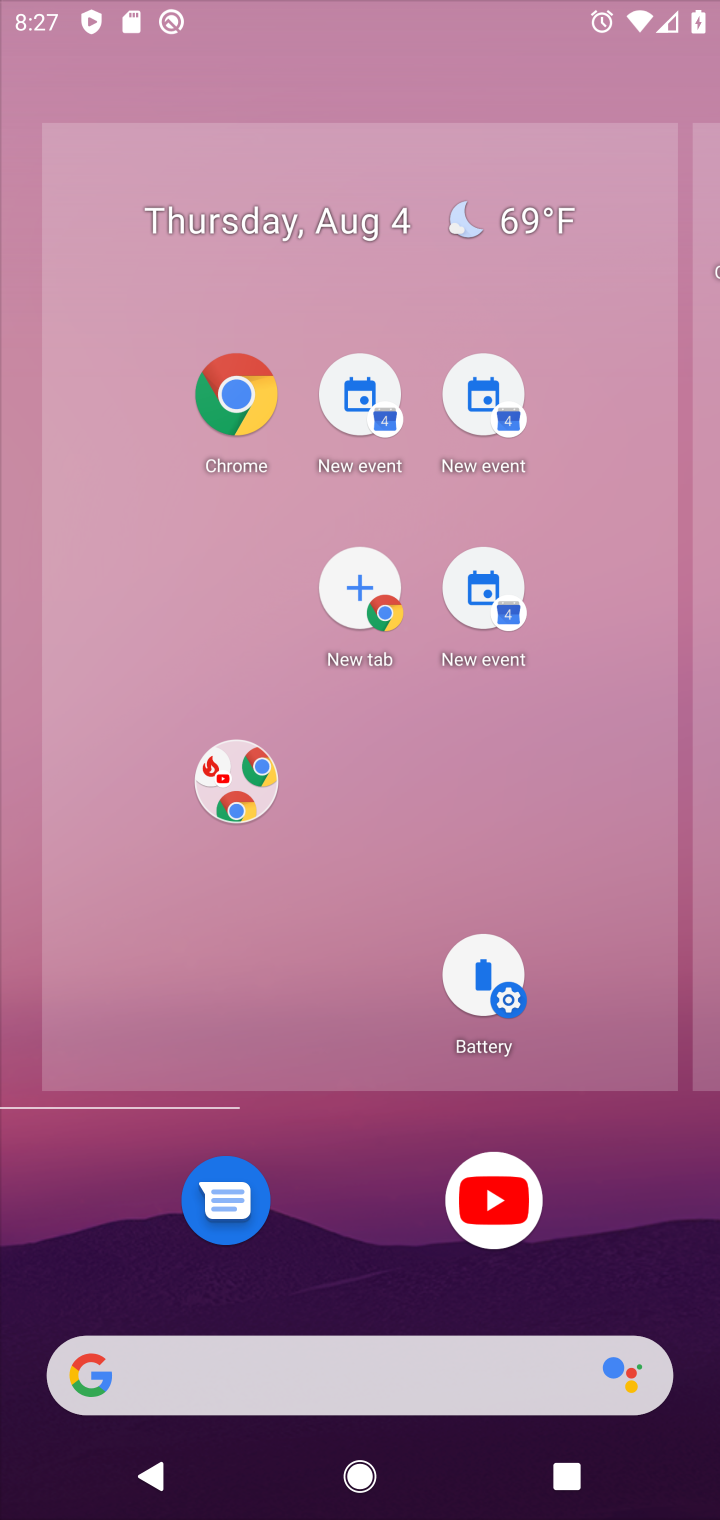
Step 29: click (300, 96)
Your task to perform on an android device: Go to calendar. Show me events next week Image 30: 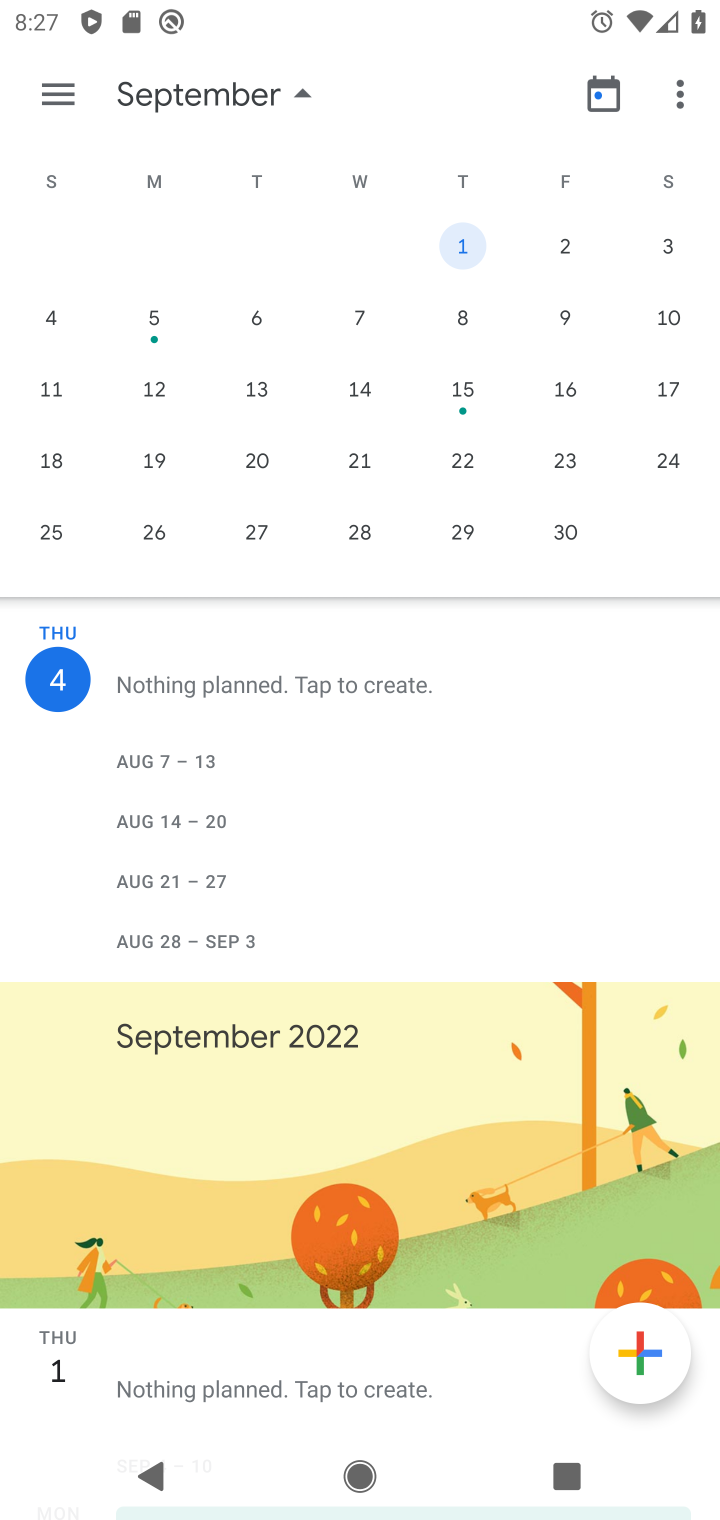
Step 30: drag from (124, 398) to (636, 396)
Your task to perform on an android device: Go to calendar. Show me events next week Image 31: 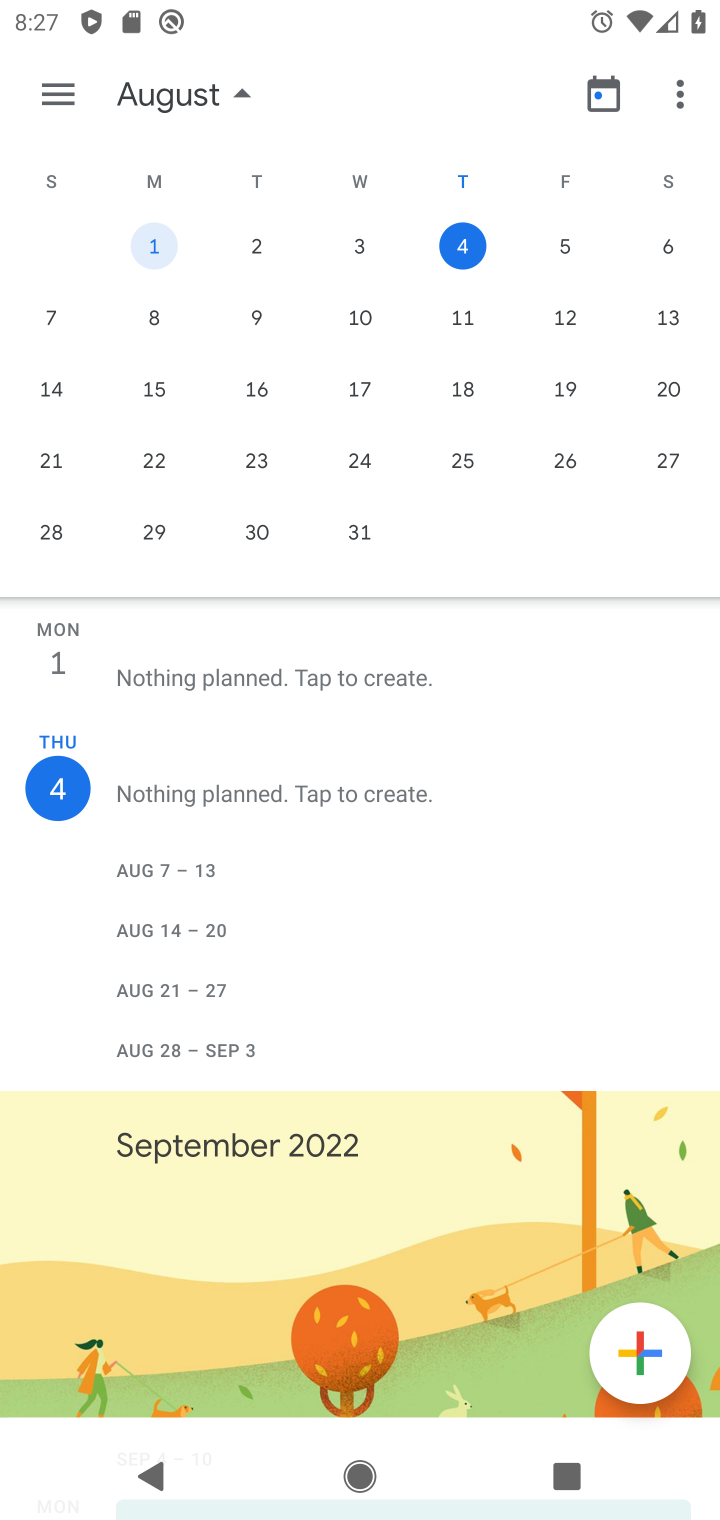
Step 31: click (455, 314)
Your task to perform on an android device: Go to calendar. Show me events next week Image 32: 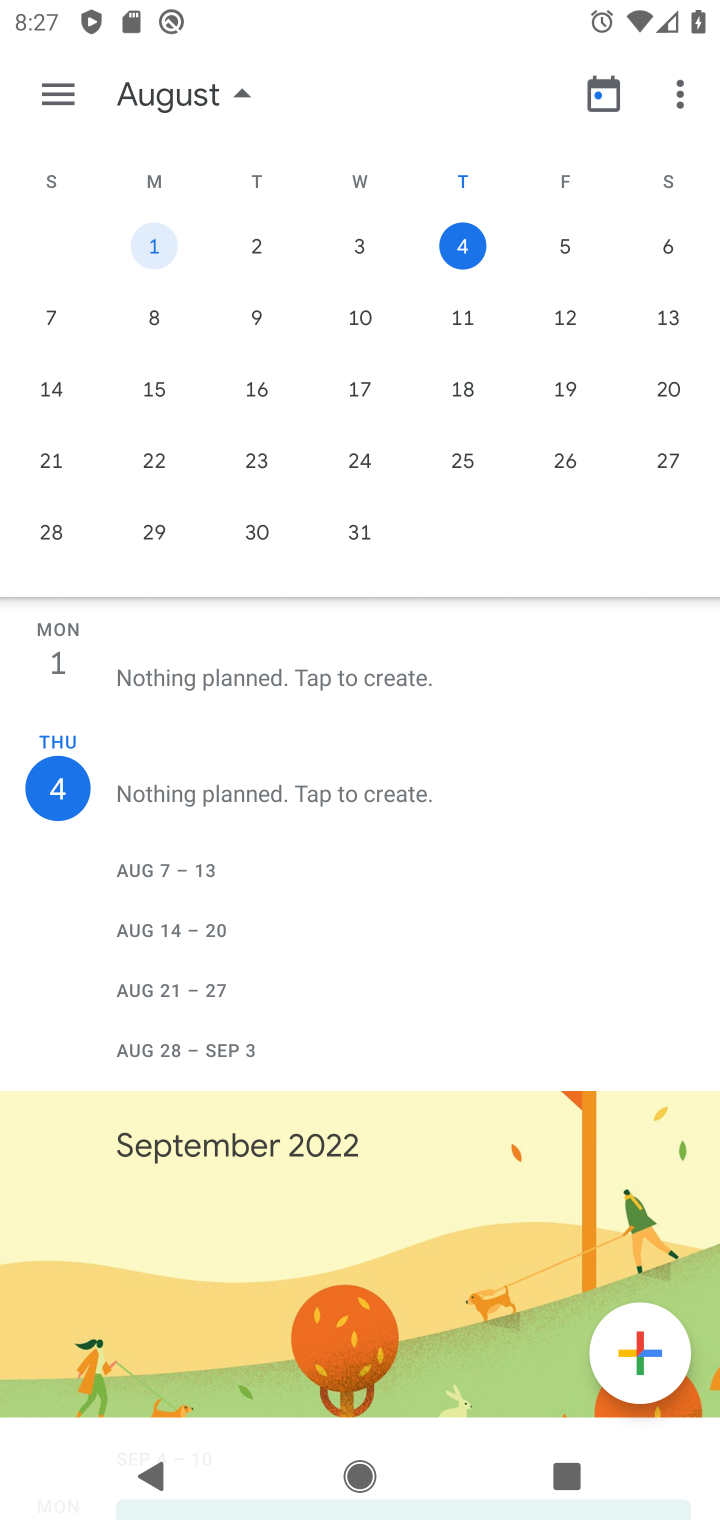
Step 32: click (472, 316)
Your task to perform on an android device: Go to calendar. Show me events next week Image 33: 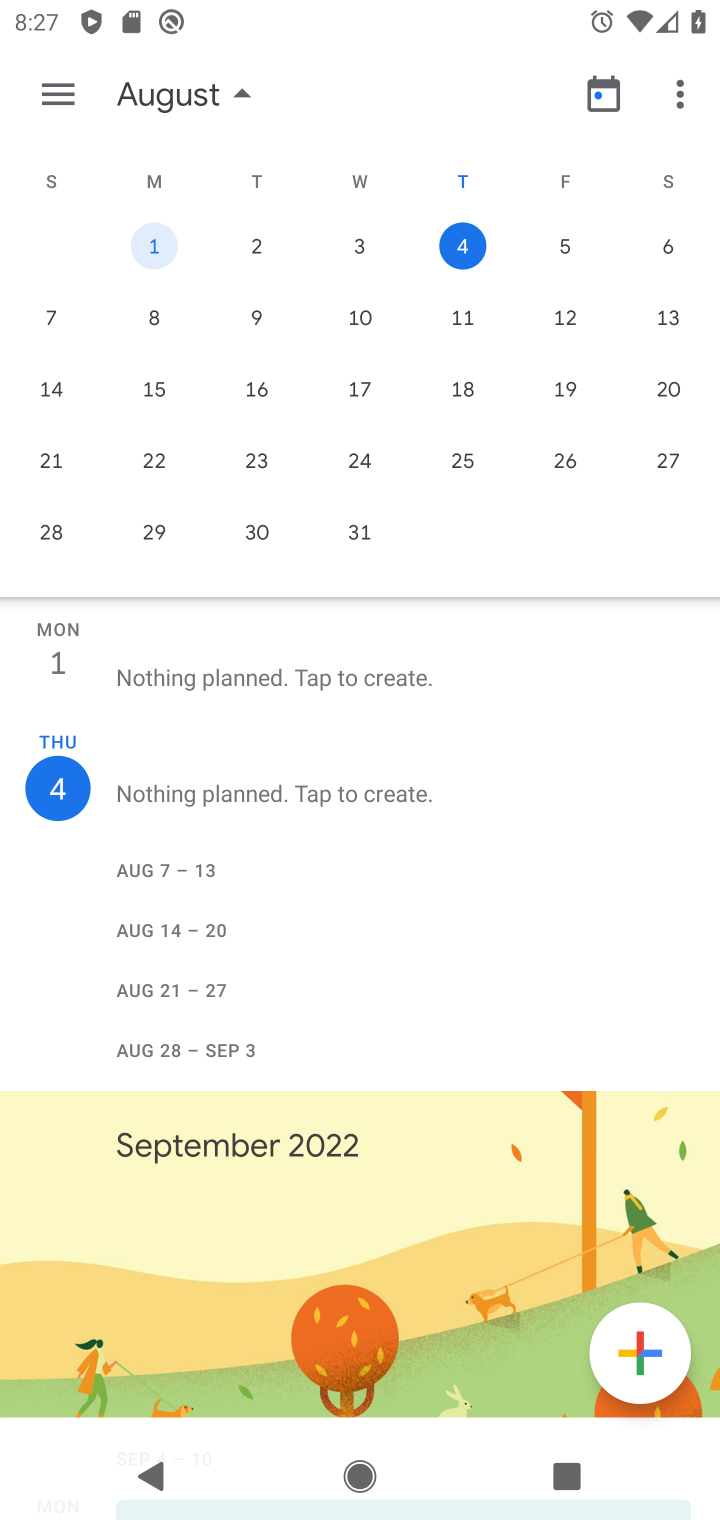
Step 33: click (466, 322)
Your task to perform on an android device: Go to calendar. Show me events next week Image 34: 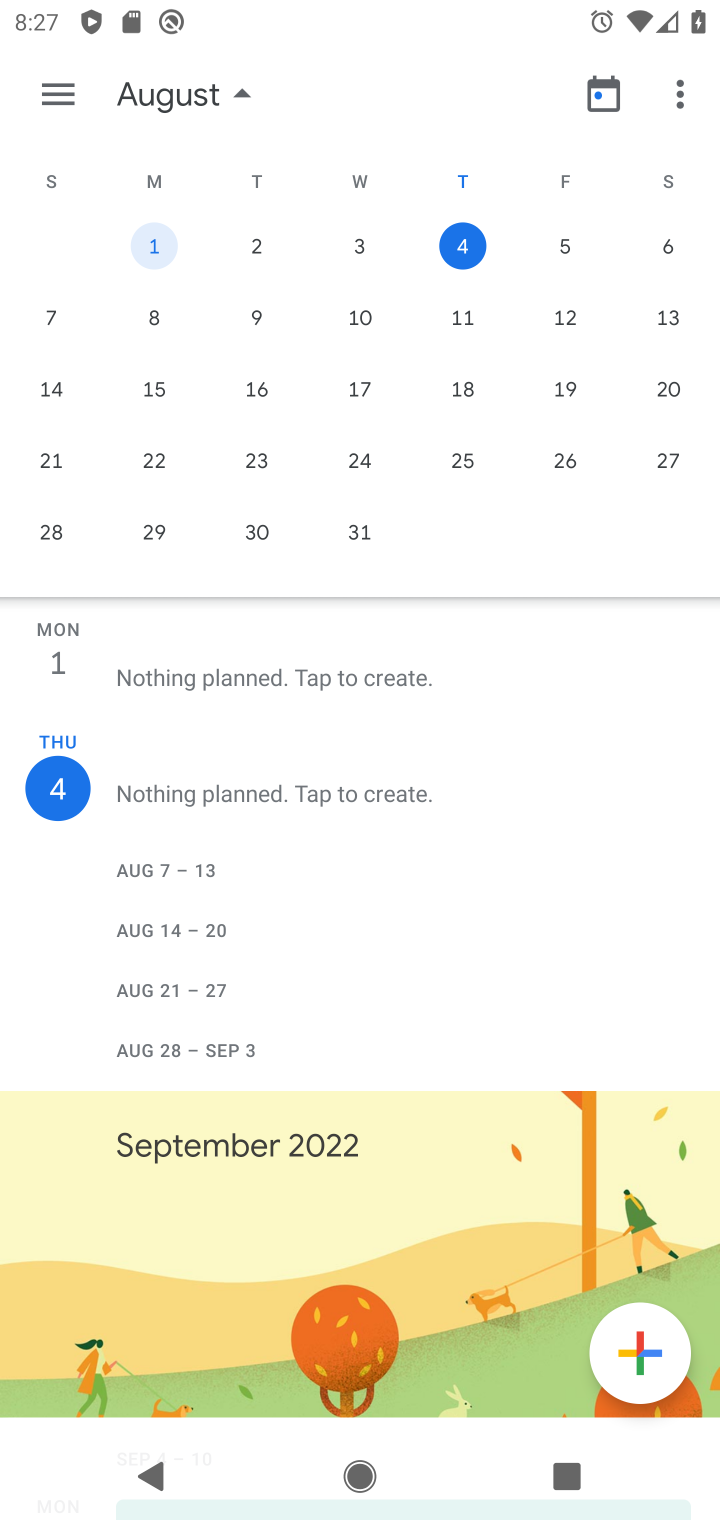
Step 34: task complete